Your task to perform on an android device: Search for flights from Helsinki to Seoul Image 0: 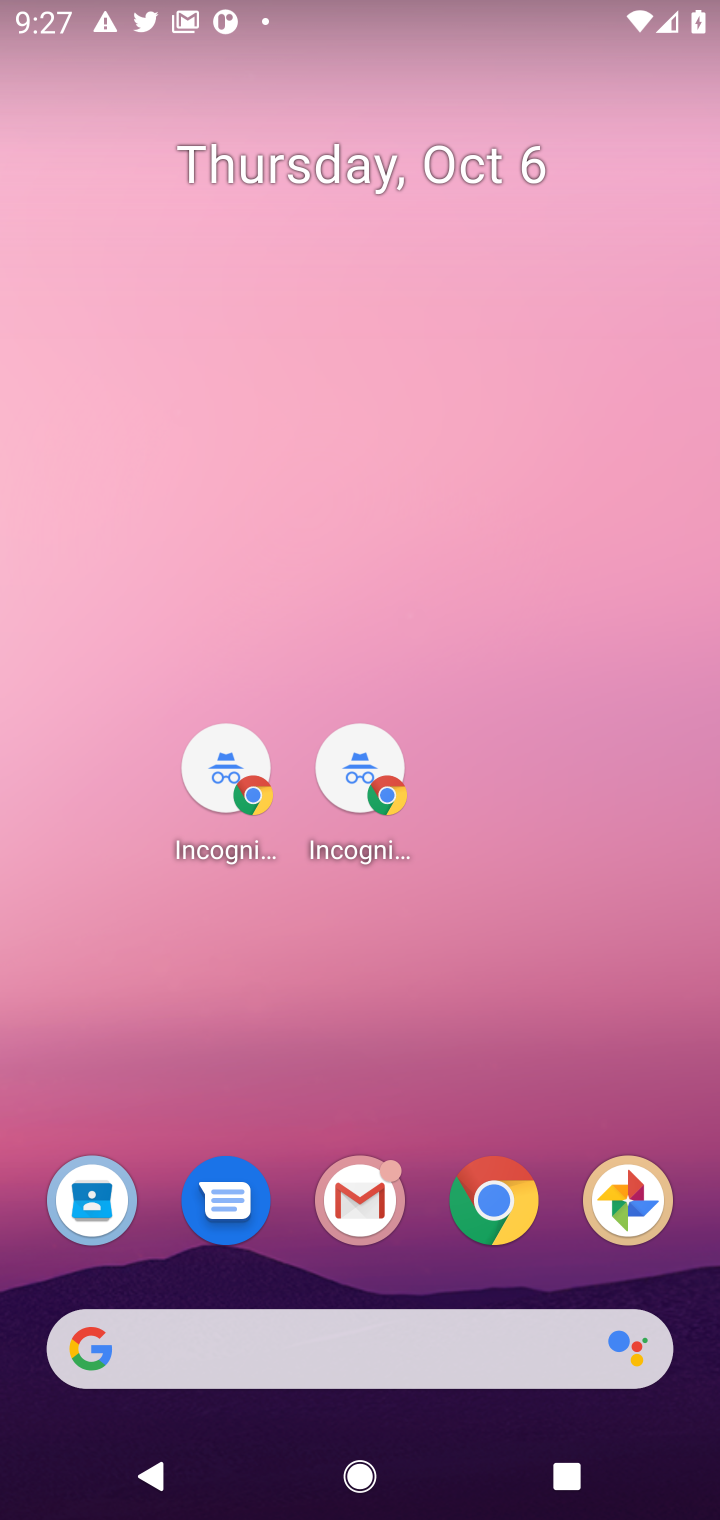
Step 0: click (504, 1221)
Your task to perform on an android device: Search for flights from Helsinki to Seoul Image 1: 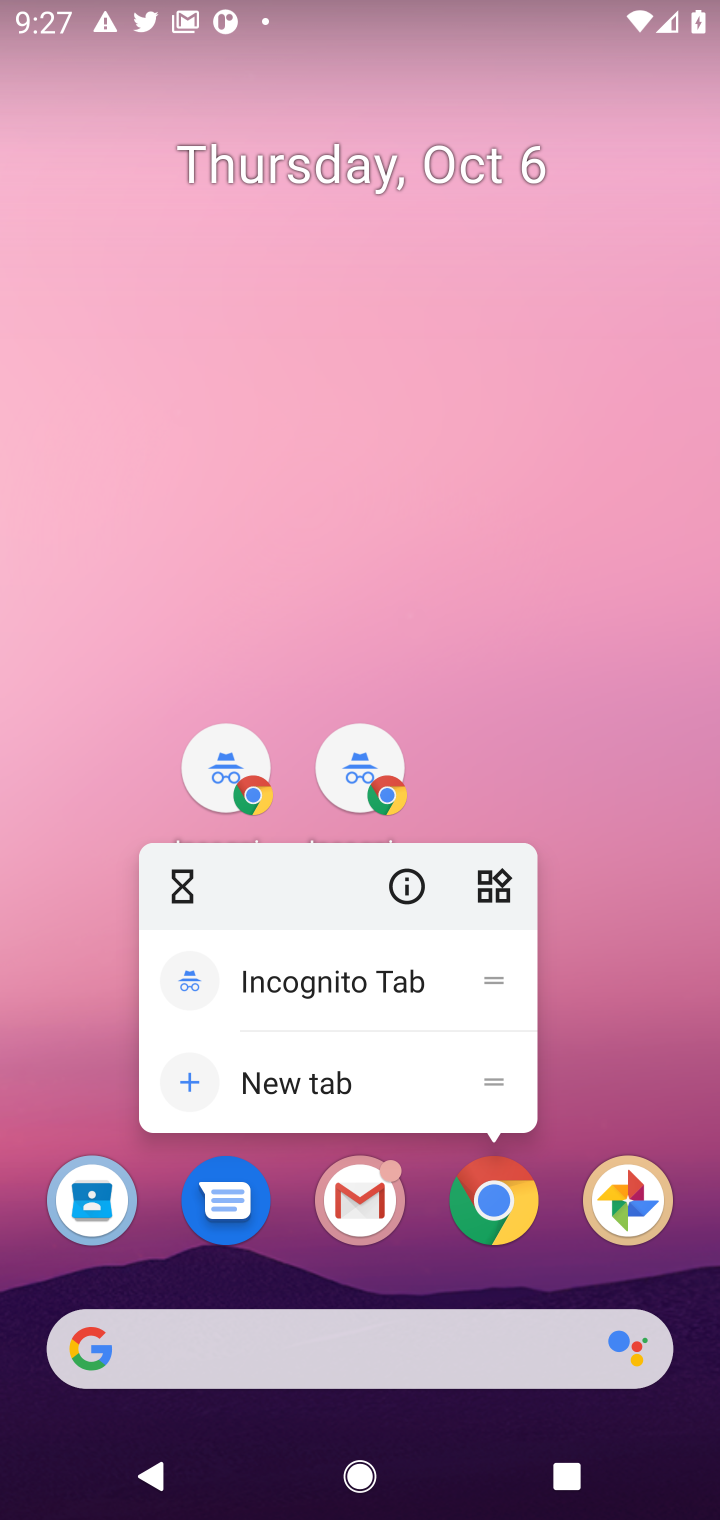
Step 1: press home button
Your task to perform on an android device: Search for flights from Helsinki to Seoul Image 2: 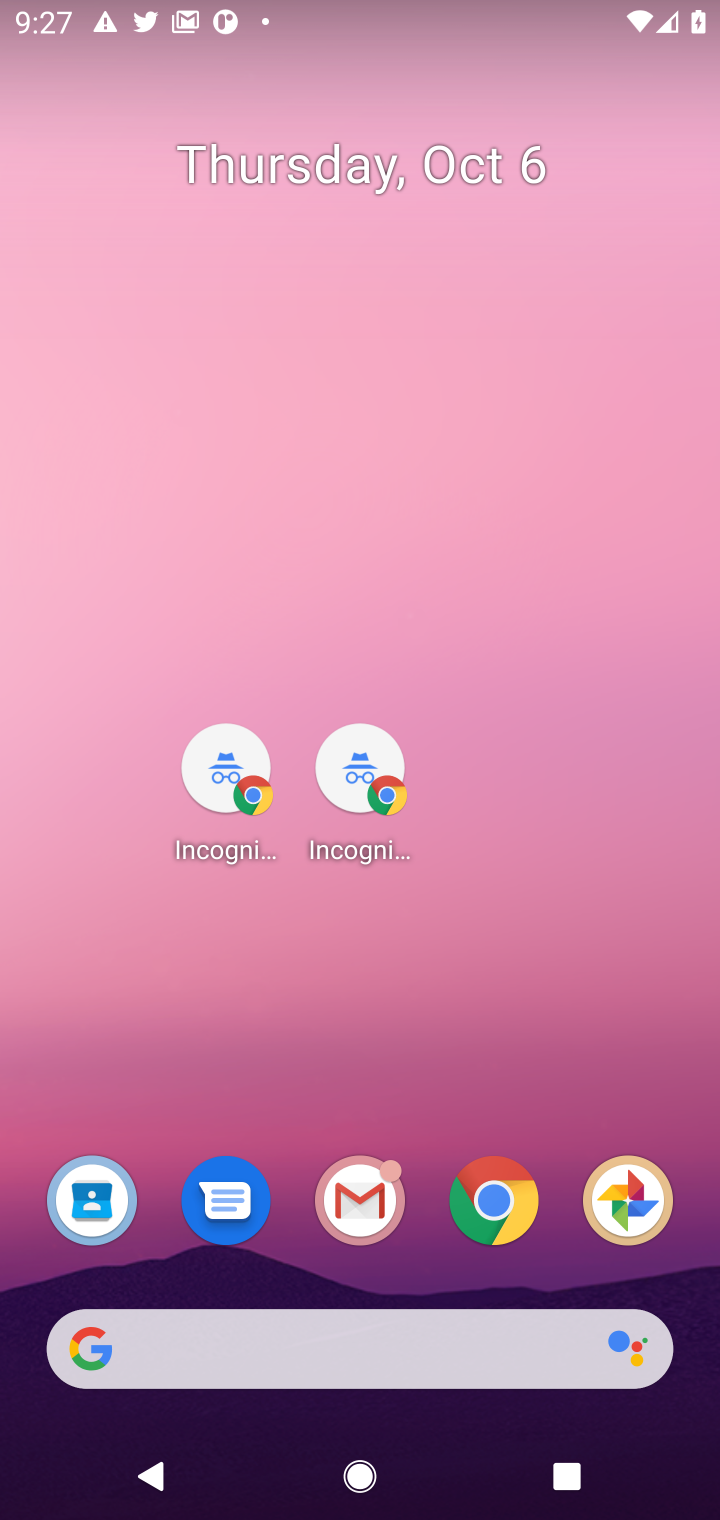
Step 2: press home button
Your task to perform on an android device: Search for flights from Helsinki to Seoul Image 3: 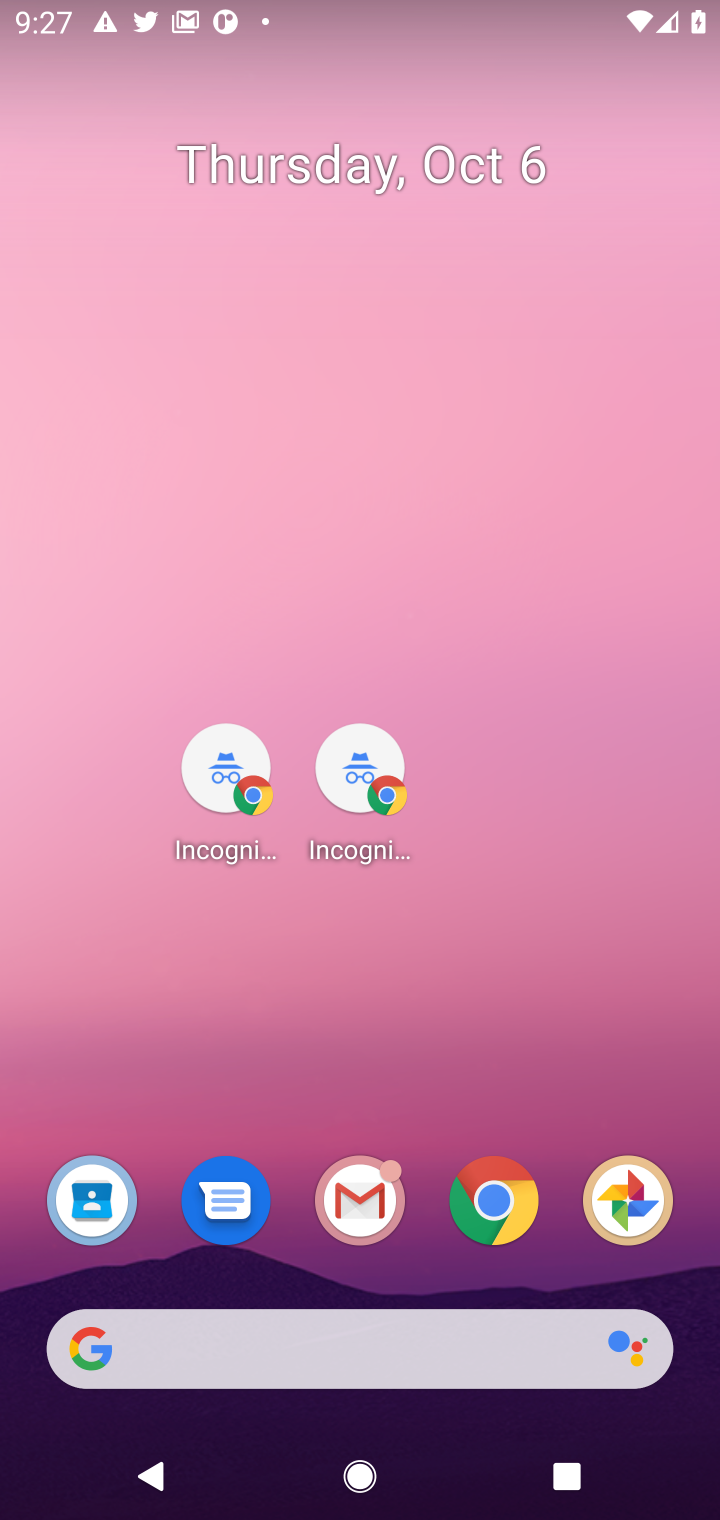
Step 3: press back button
Your task to perform on an android device: Search for flights from Helsinki to Seoul Image 4: 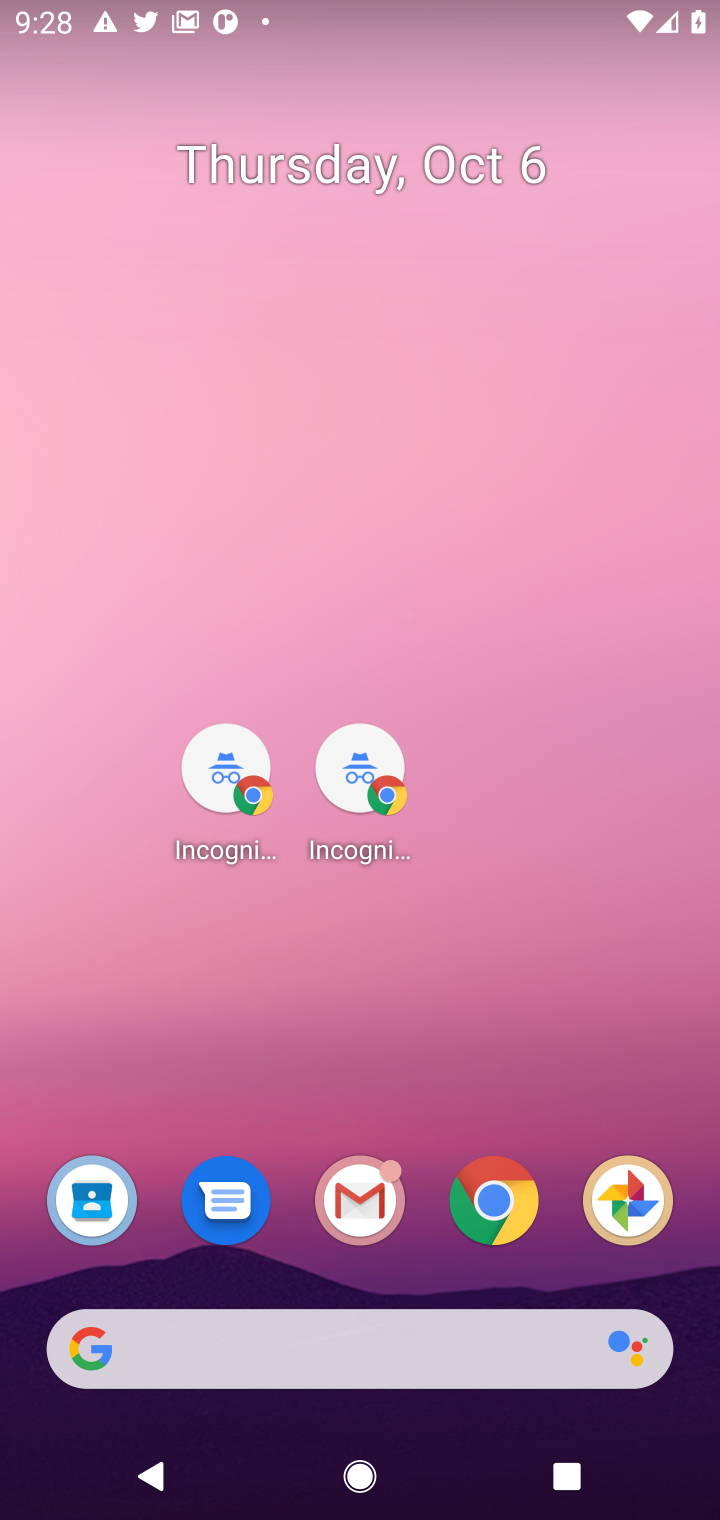
Step 4: press back button
Your task to perform on an android device: Search for flights from Helsinki to Seoul Image 5: 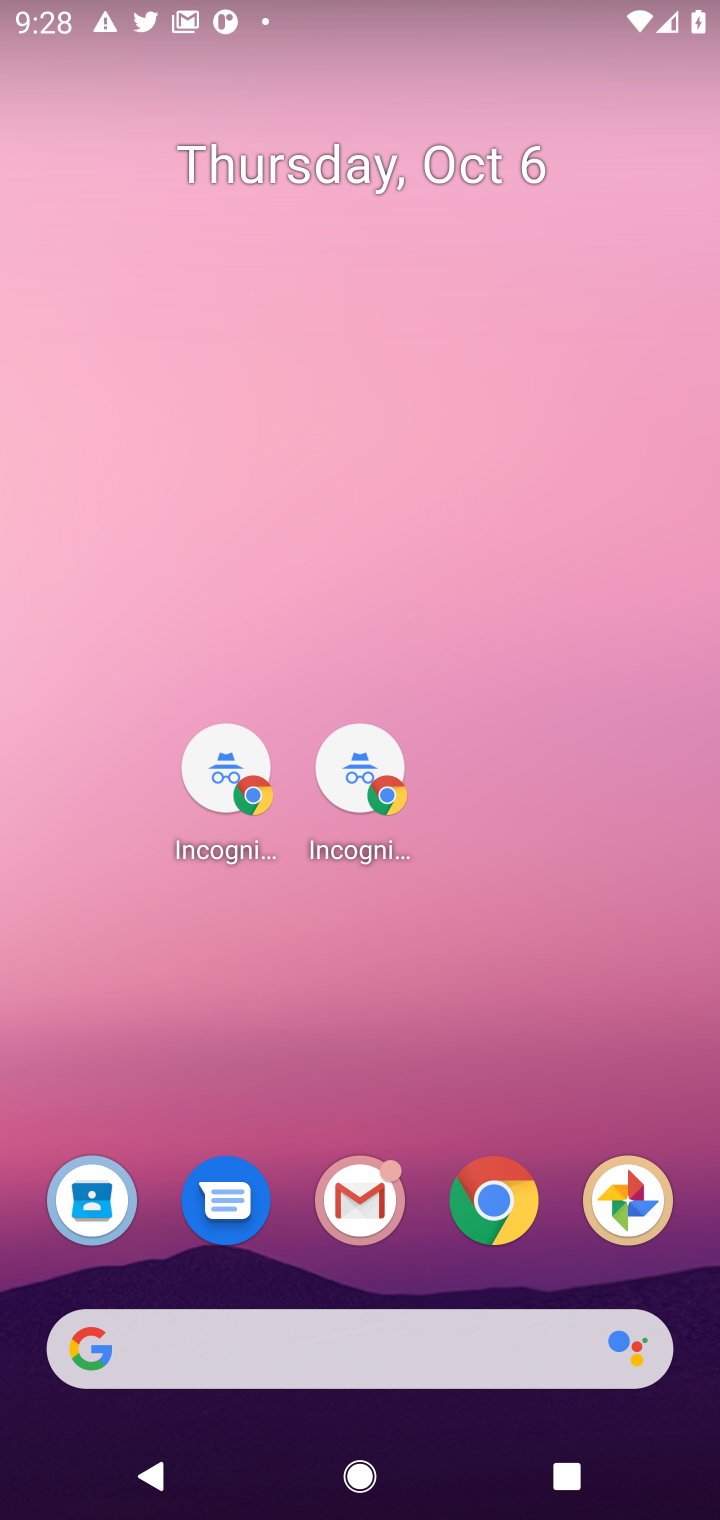
Step 5: press home button
Your task to perform on an android device: Search for flights from Helsinki to Seoul Image 6: 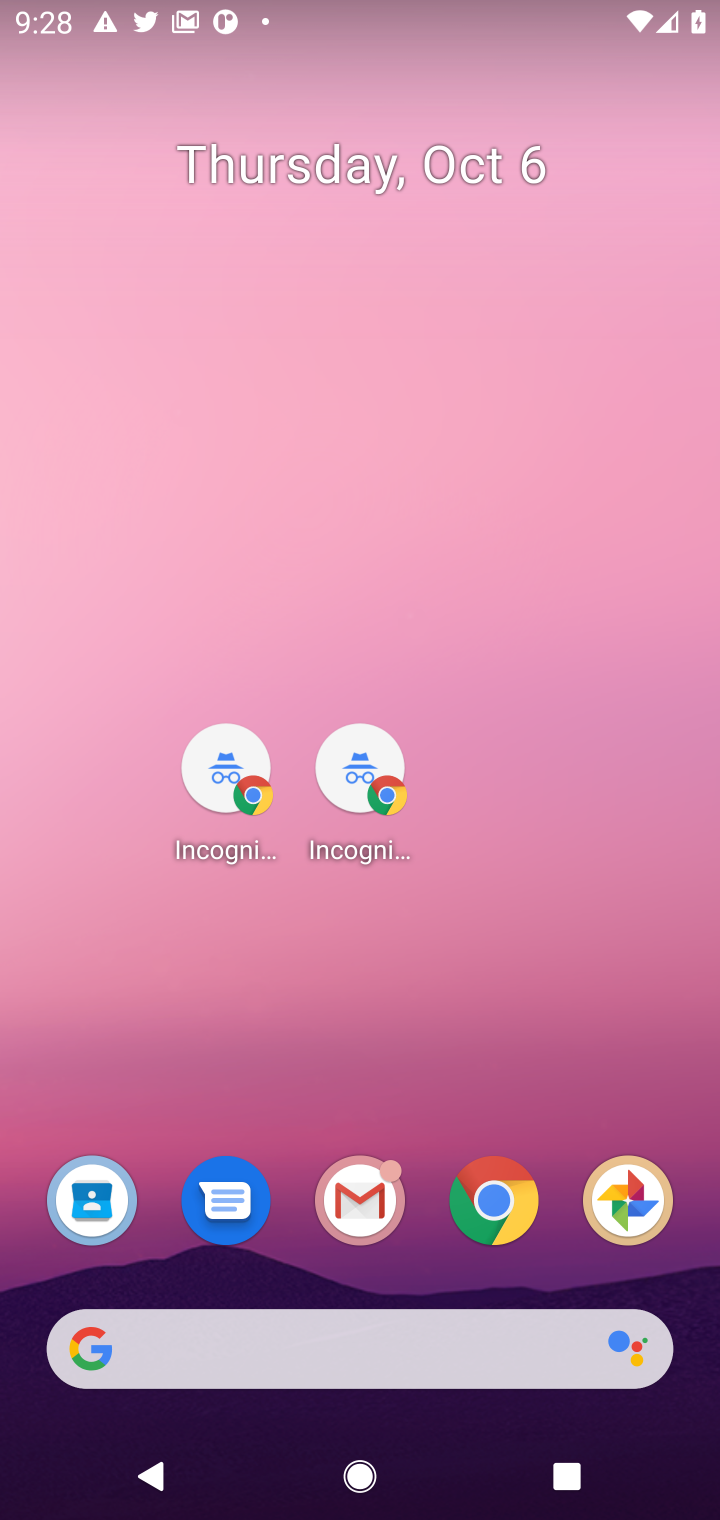
Step 6: click (529, 1205)
Your task to perform on an android device: Search for flights from Helsinki to Seoul Image 7: 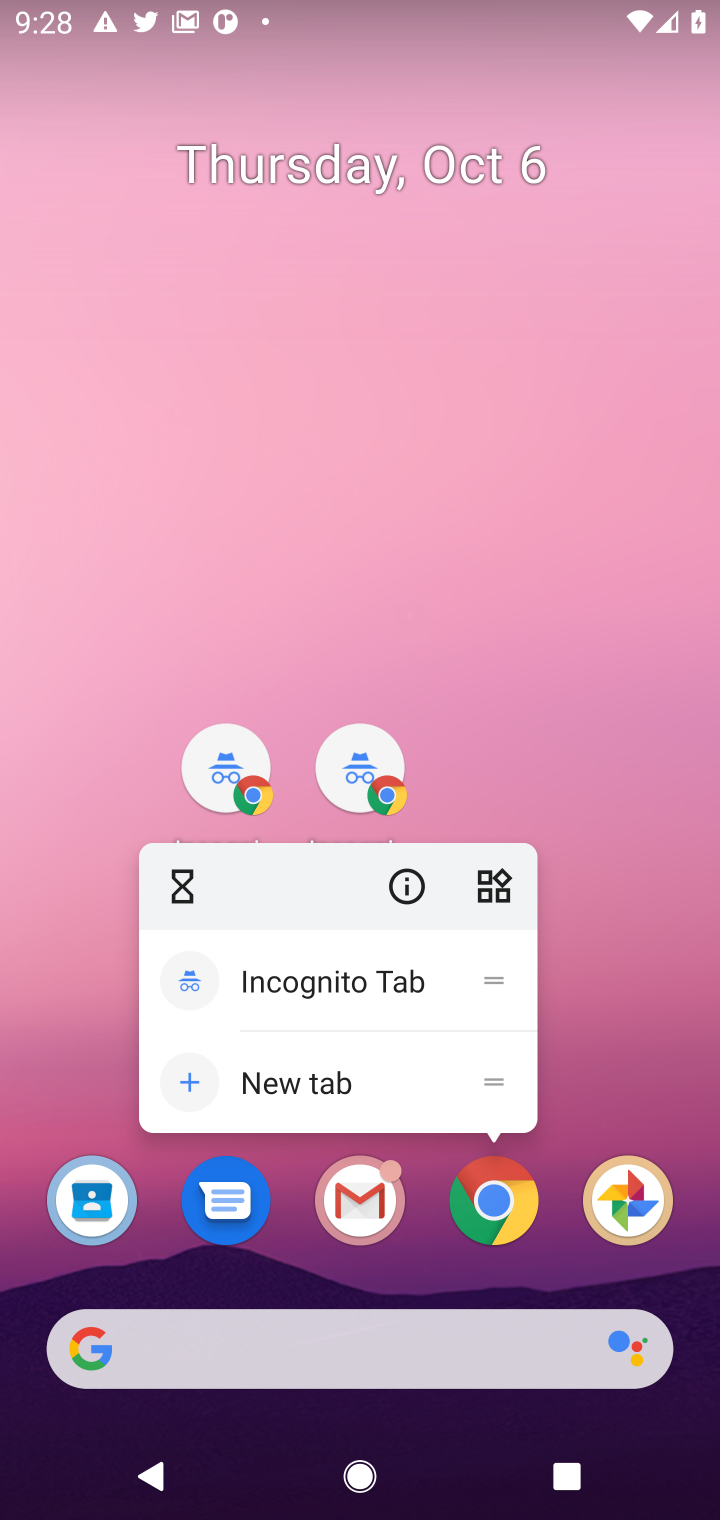
Step 7: press home button
Your task to perform on an android device: Search for flights from Helsinki to Seoul Image 8: 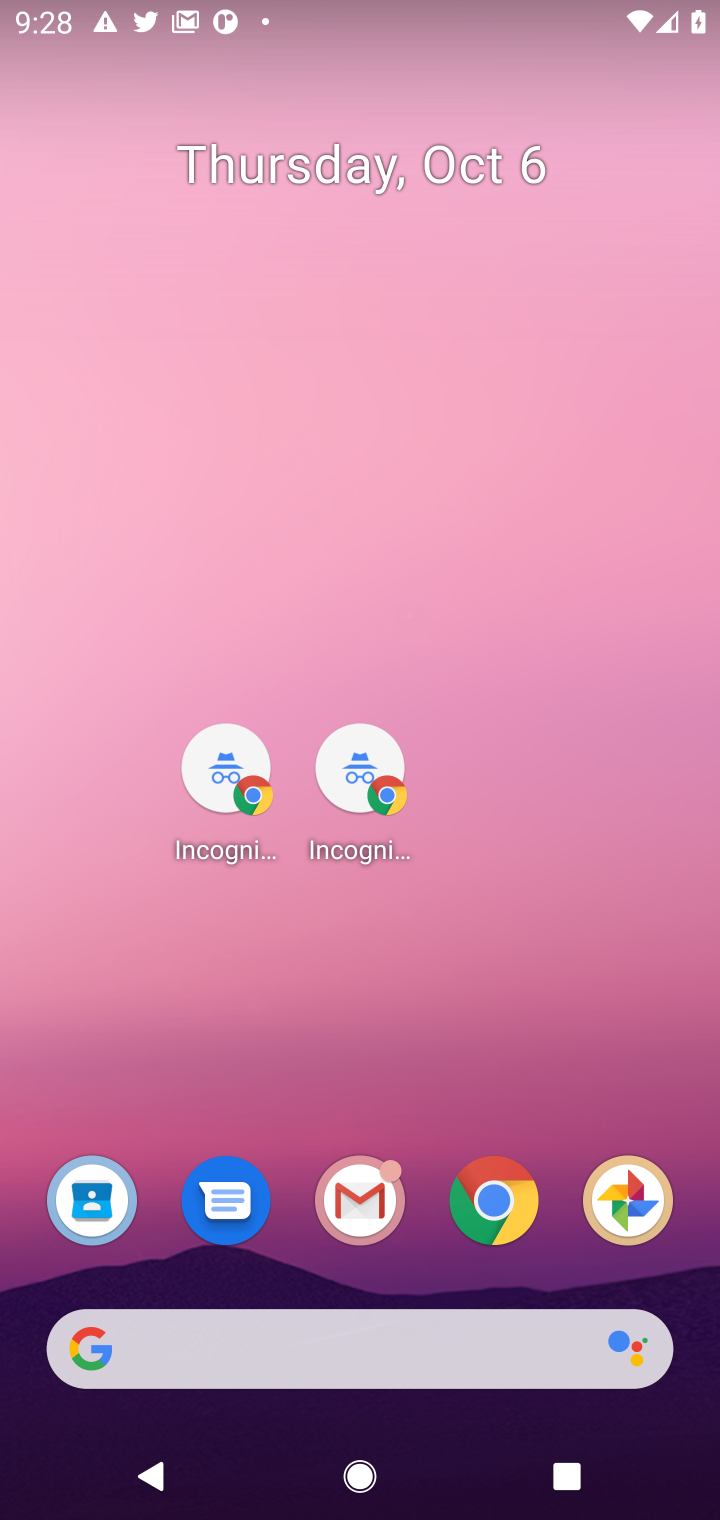
Step 8: click (496, 1203)
Your task to perform on an android device: Search for flights from Helsinki to Seoul Image 9: 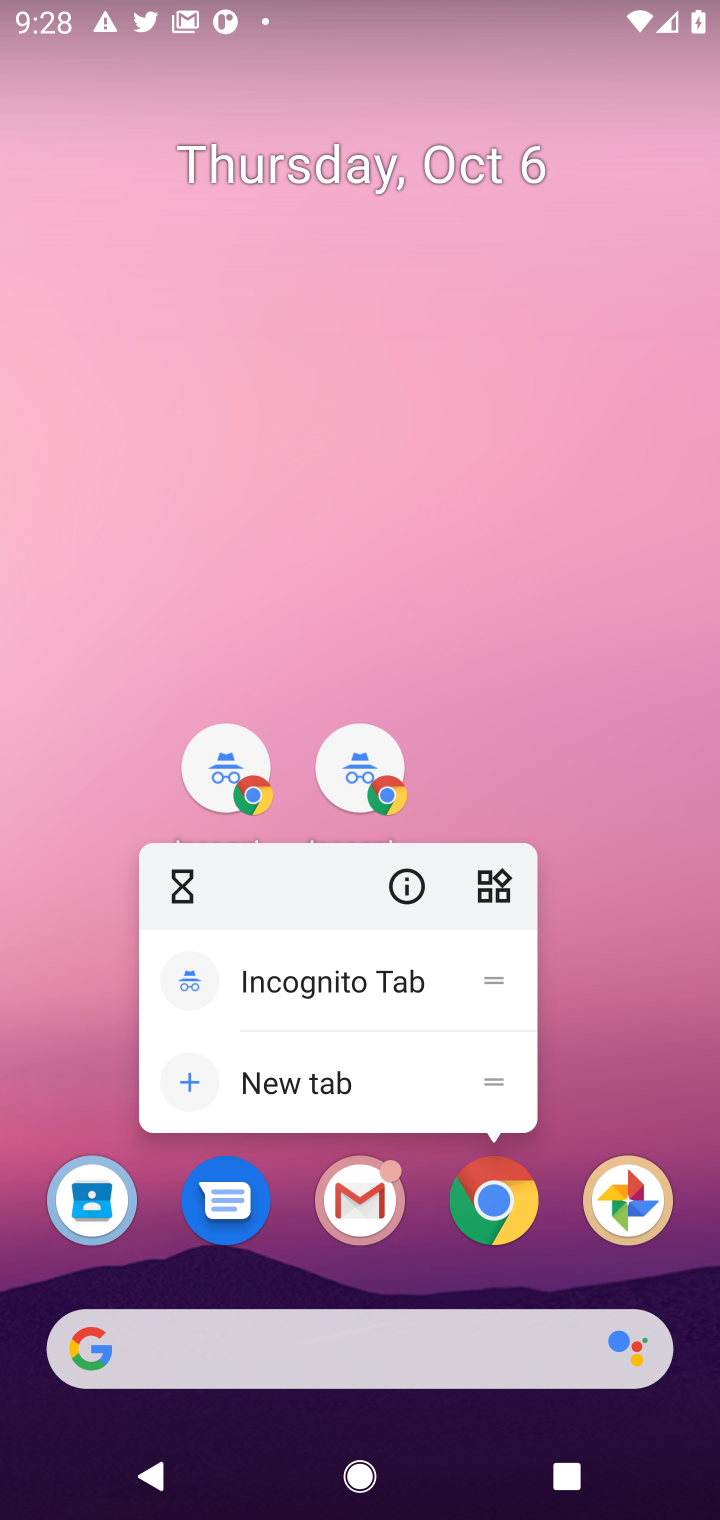
Step 9: press home button
Your task to perform on an android device: Search for flights from Helsinki to Seoul Image 10: 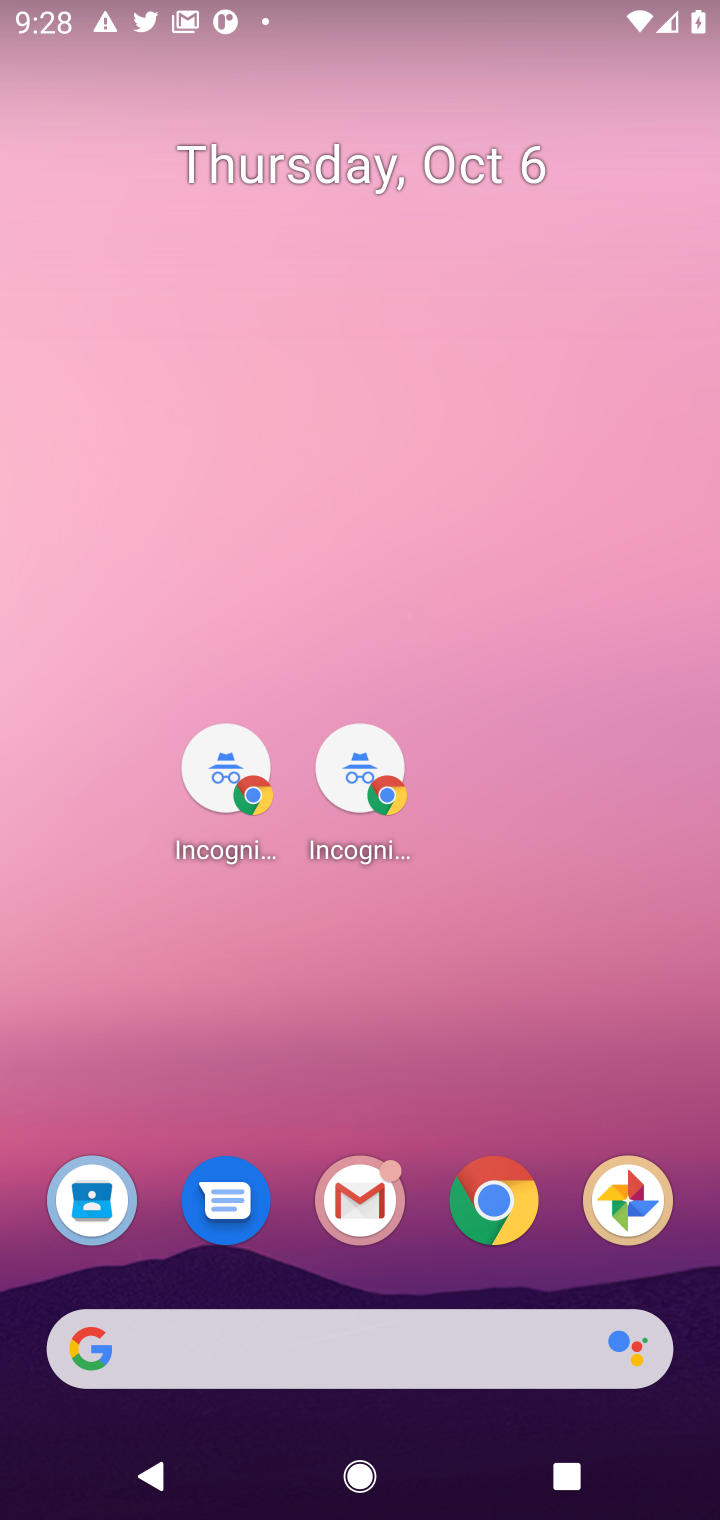
Step 10: press back button
Your task to perform on an android device: Search for flights from Helsinki to Seoul Image 11: 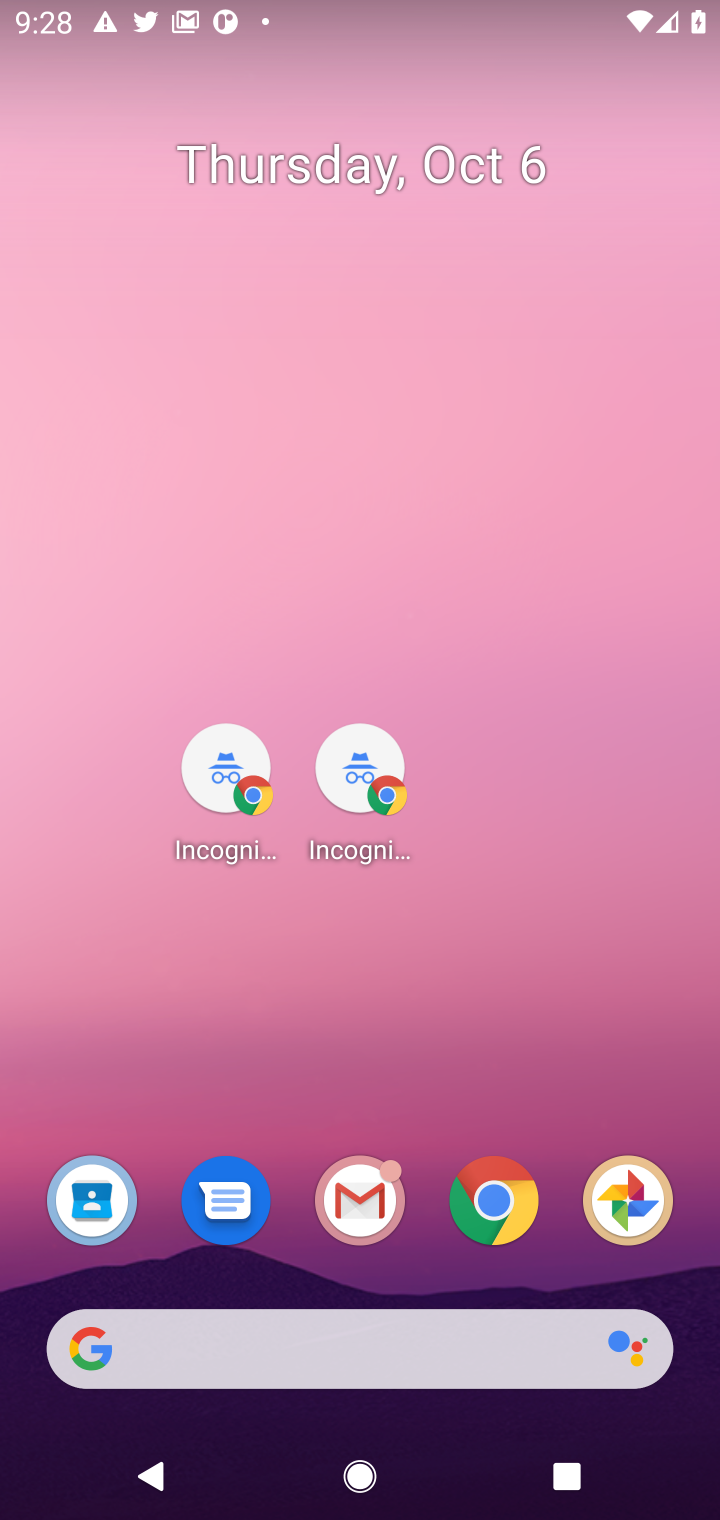
Step 11: press home button
Your task to perform on an android device: Search for flights from Helsinki to Seoul Image 12: 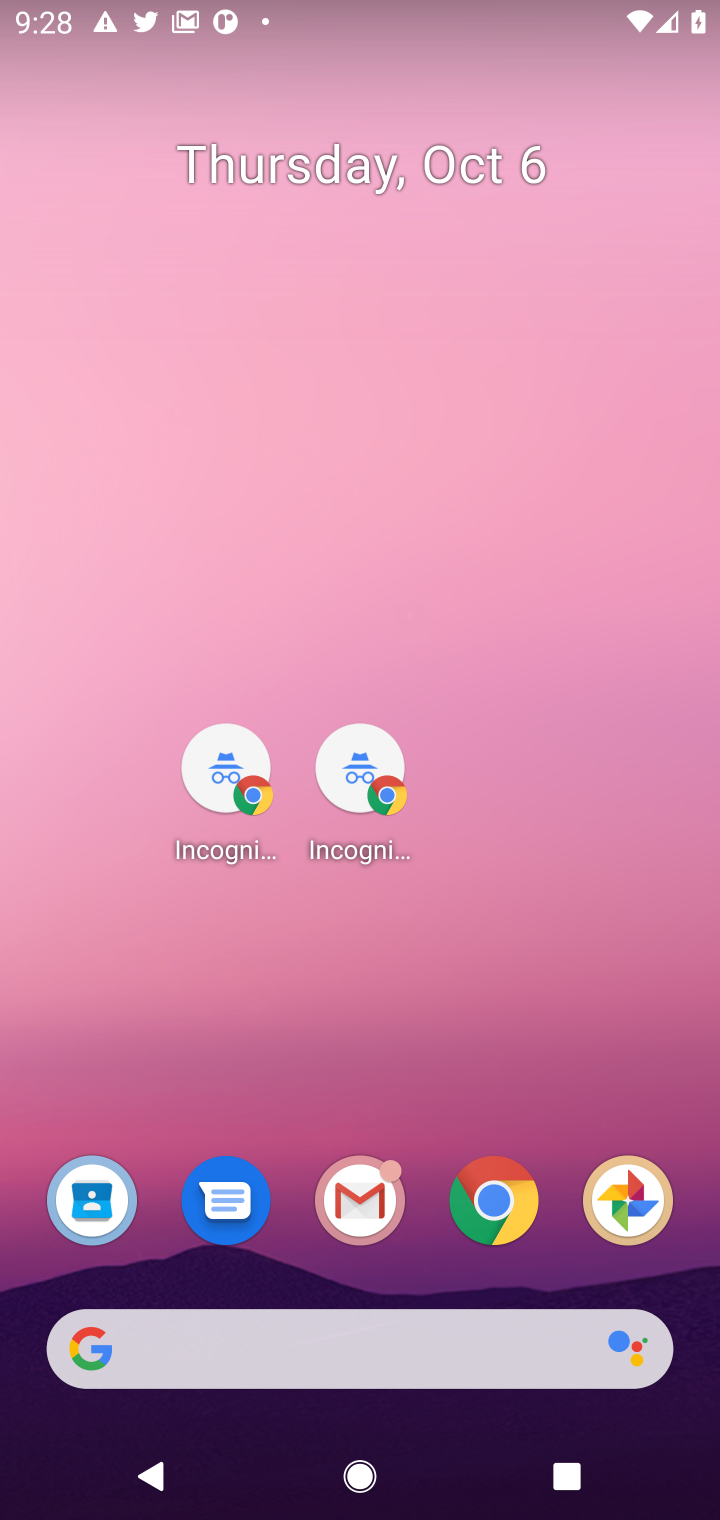
Step 12: click (485, 1190)
Your task to perform on an android device: Search for flights from Helsinki to Seoul Image 13: 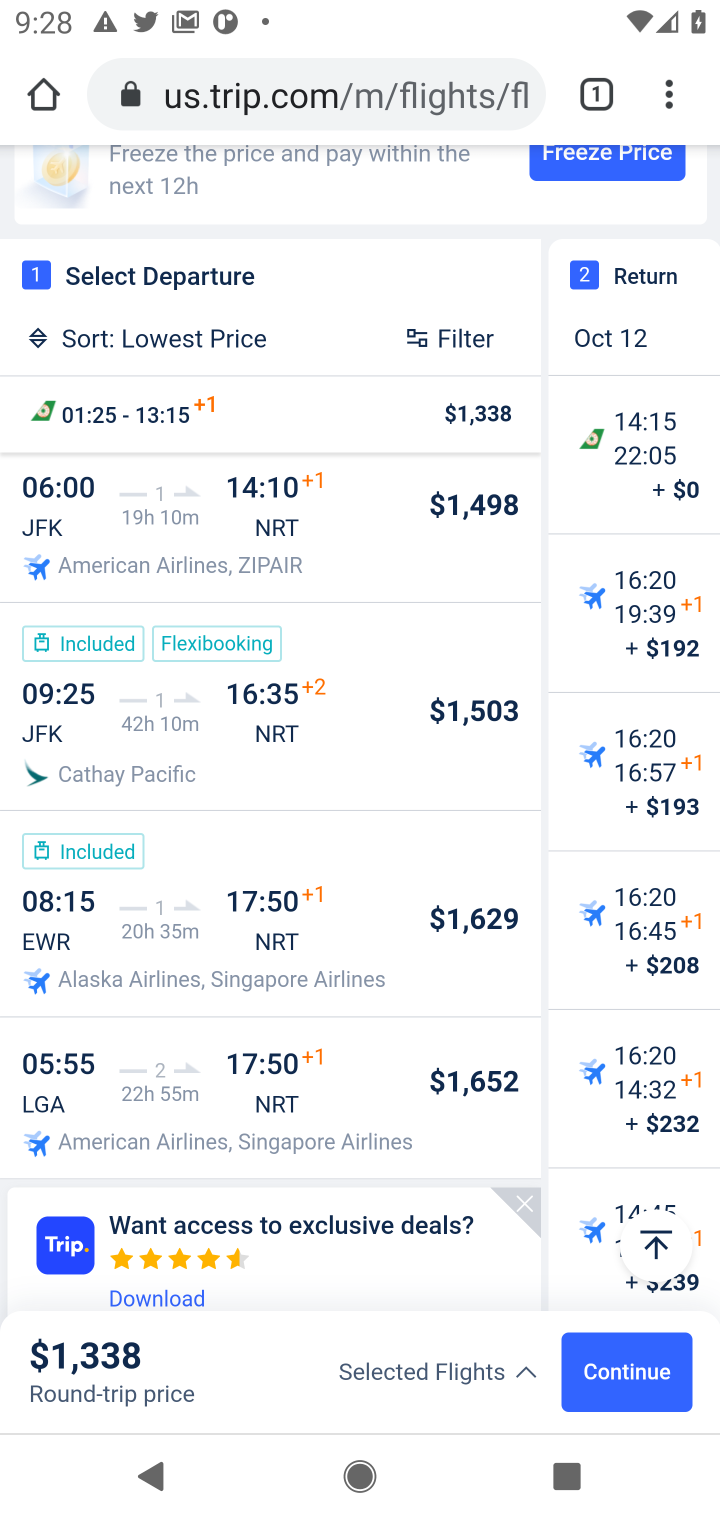
Step 13: drag from (359, 1028) to (419, 115)
Your task to perform on an android device: Search for flights from Helsinki to Seoul Image 14: 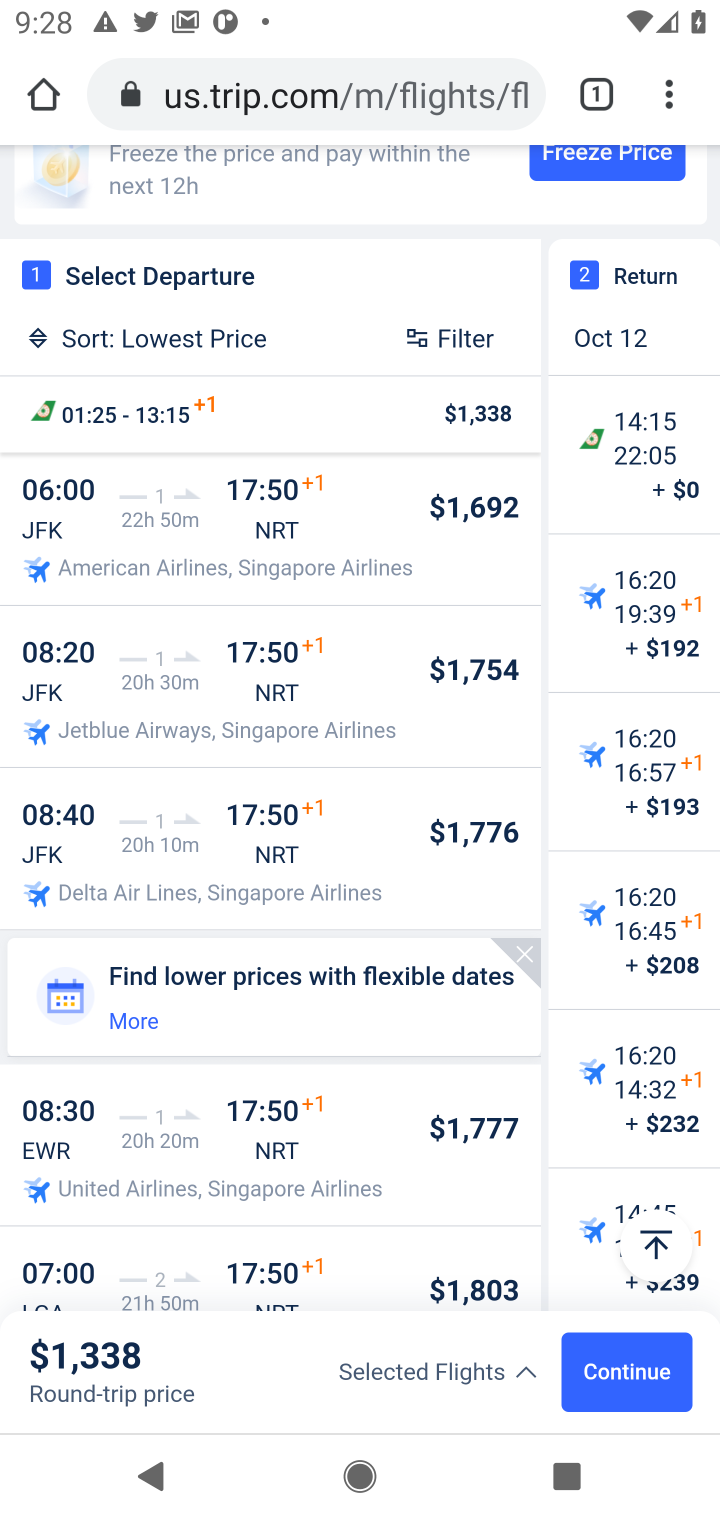
Step 14: click (515, 1357)
Your task to perform on an android device: Search for flights from Helsinki to Seoul Image 15: 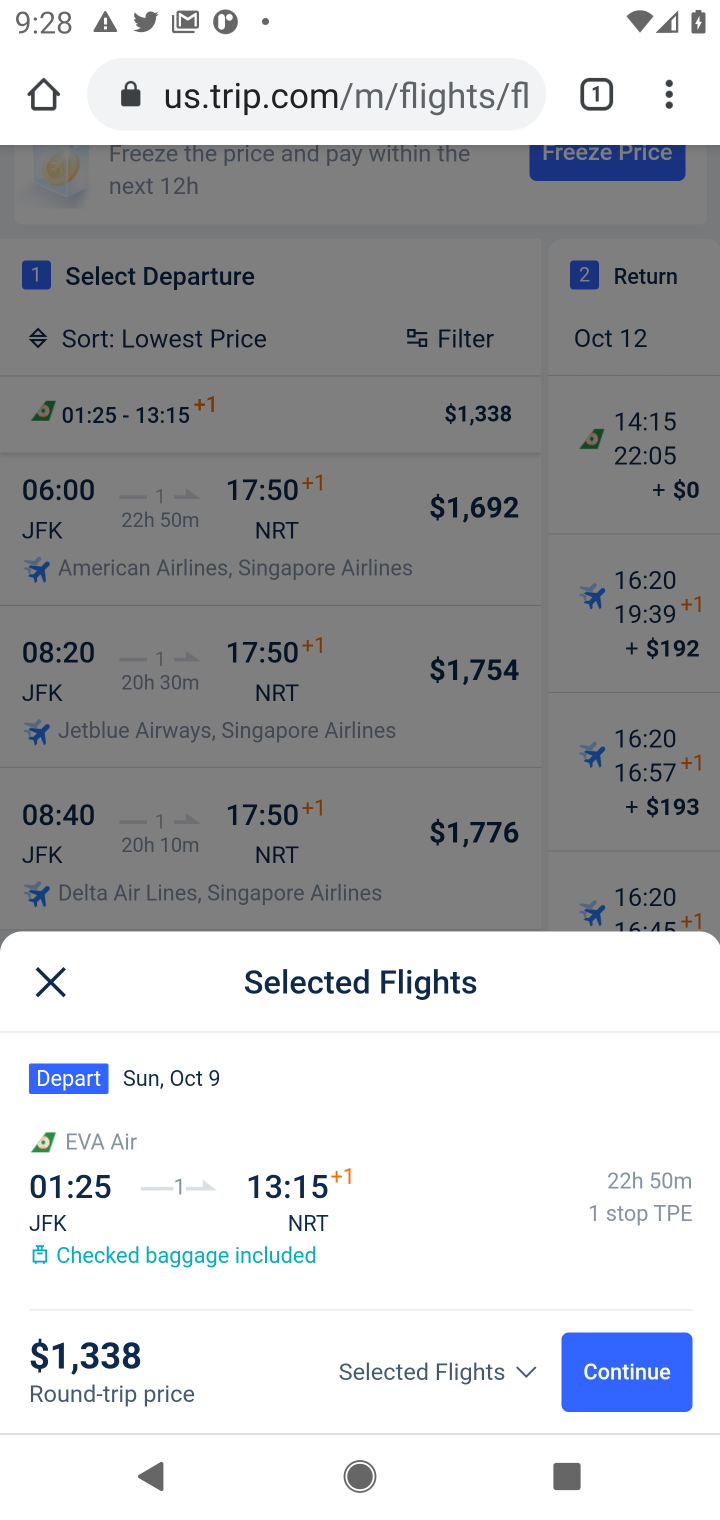
Step 15: click (61, 983)
Your task to perform on an android device: Search for flights from Helsinki to Seoul Image 16: 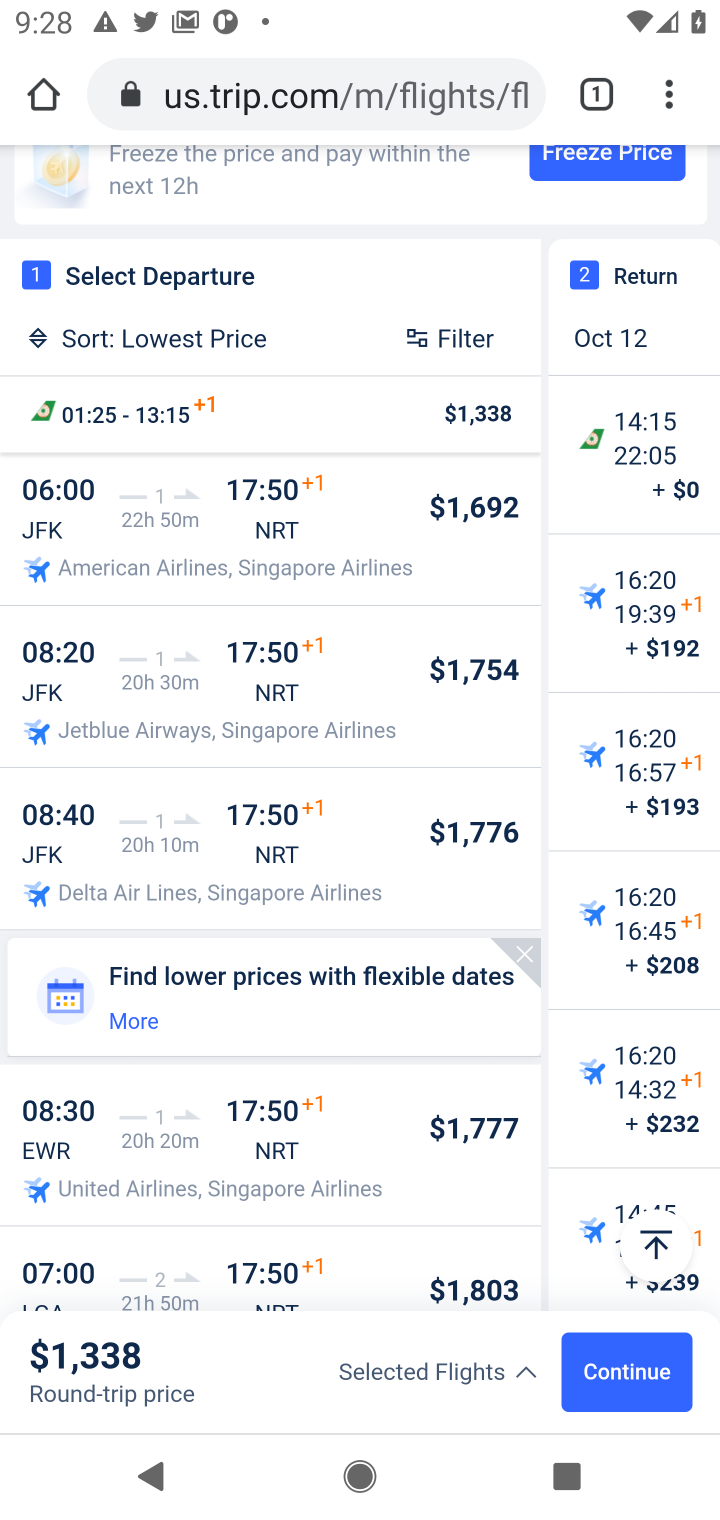
Step 16: drag from (366, 534) to (407, 1415)
Your task to perform on an android device: Search for flights from Helsinki to Seoul Image 17: 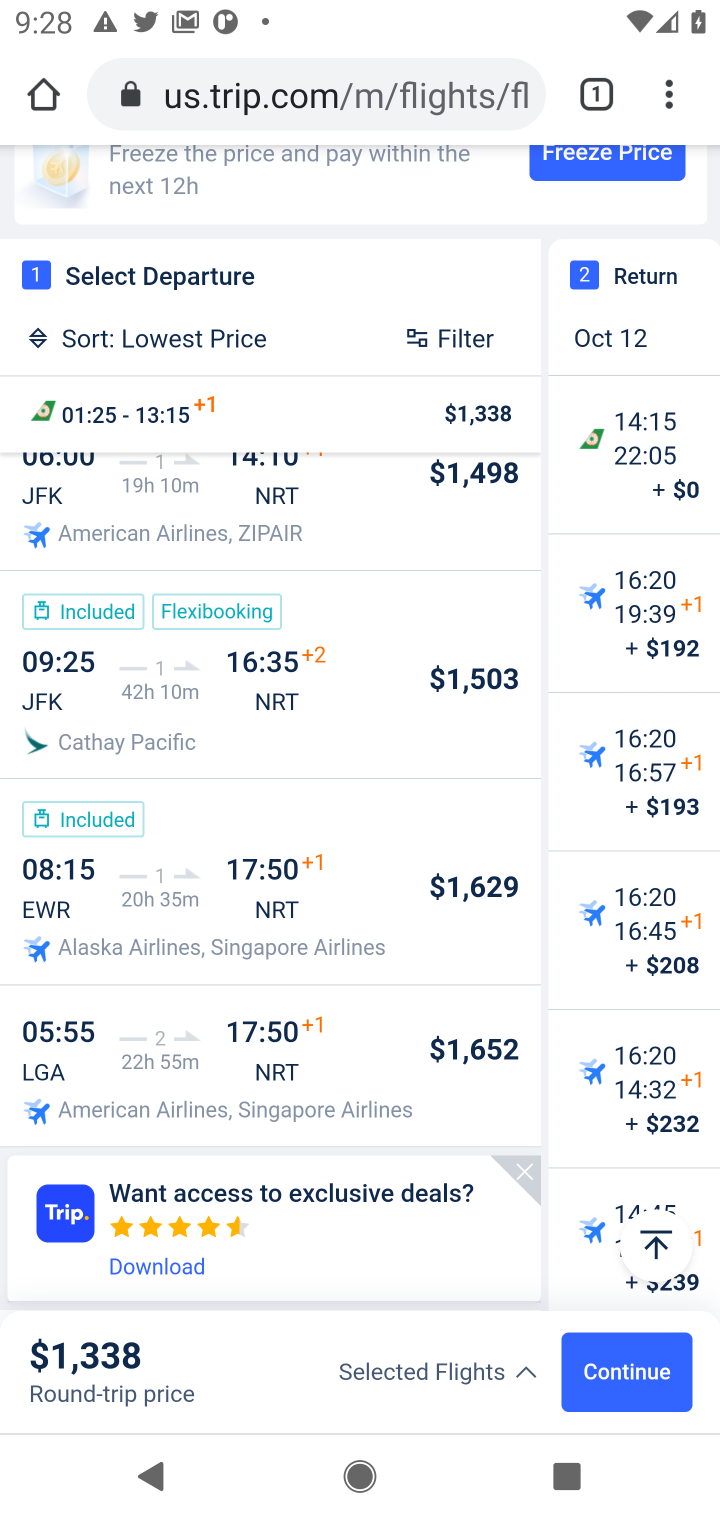
Step 17: drag from (364, 592) to (456, 1435)
Your task to perform on an android device: Search for flights from Helsinki to Seoul Image 18: 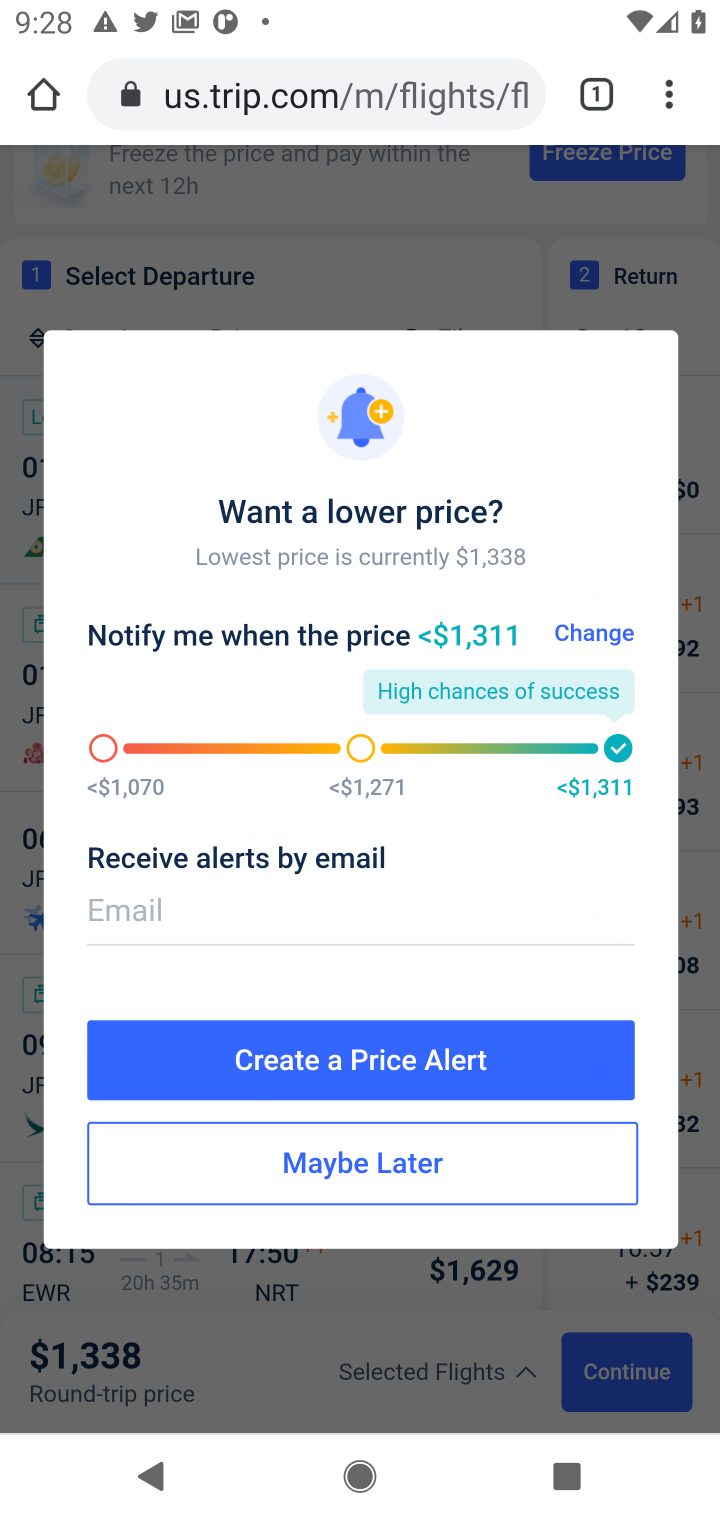
Step 18: click (380, 1163)
Your task to perform on an android device: Search for flights from Helsinki to Seoul Image 19: 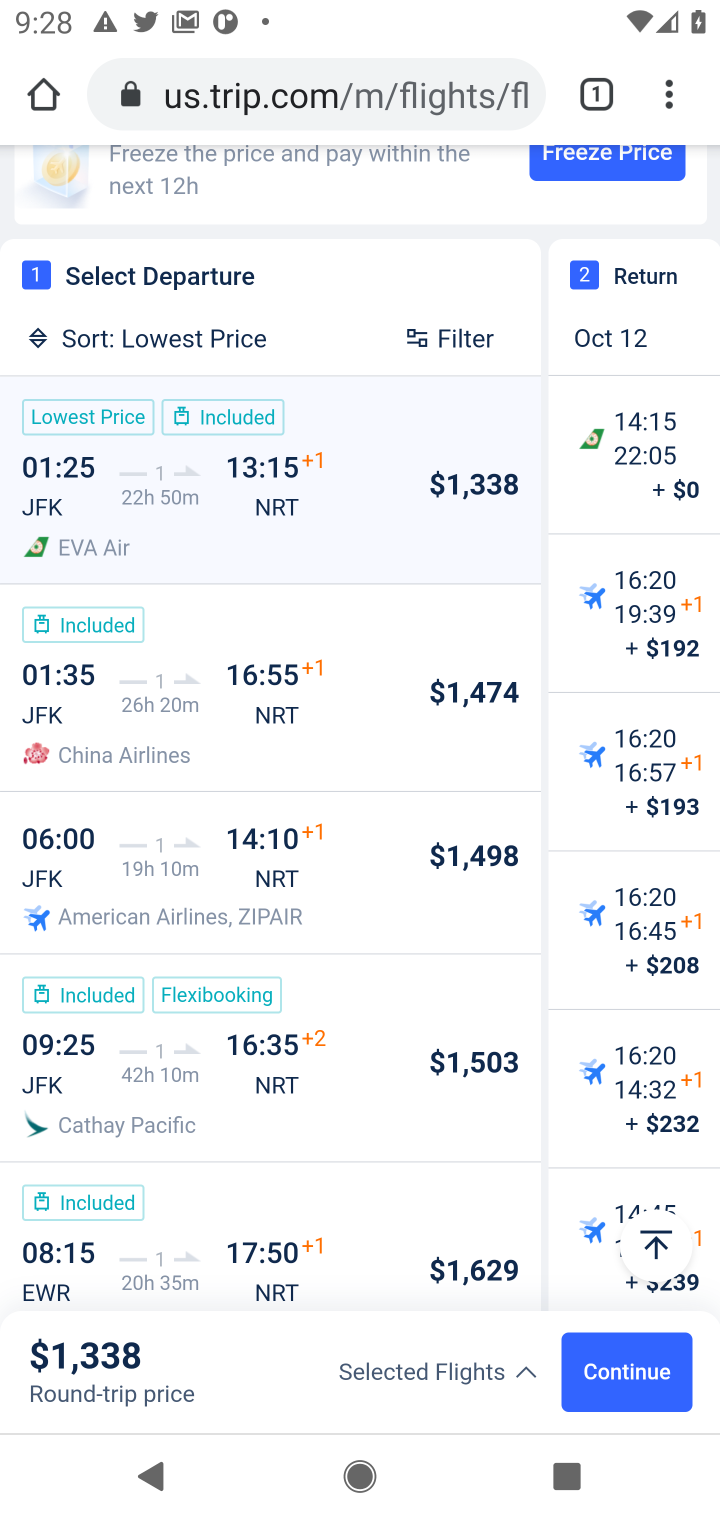
Step 19: click (457, 343)
Your task to perform on an android device: Search for flights from Helsinki to Seoul Image 20: 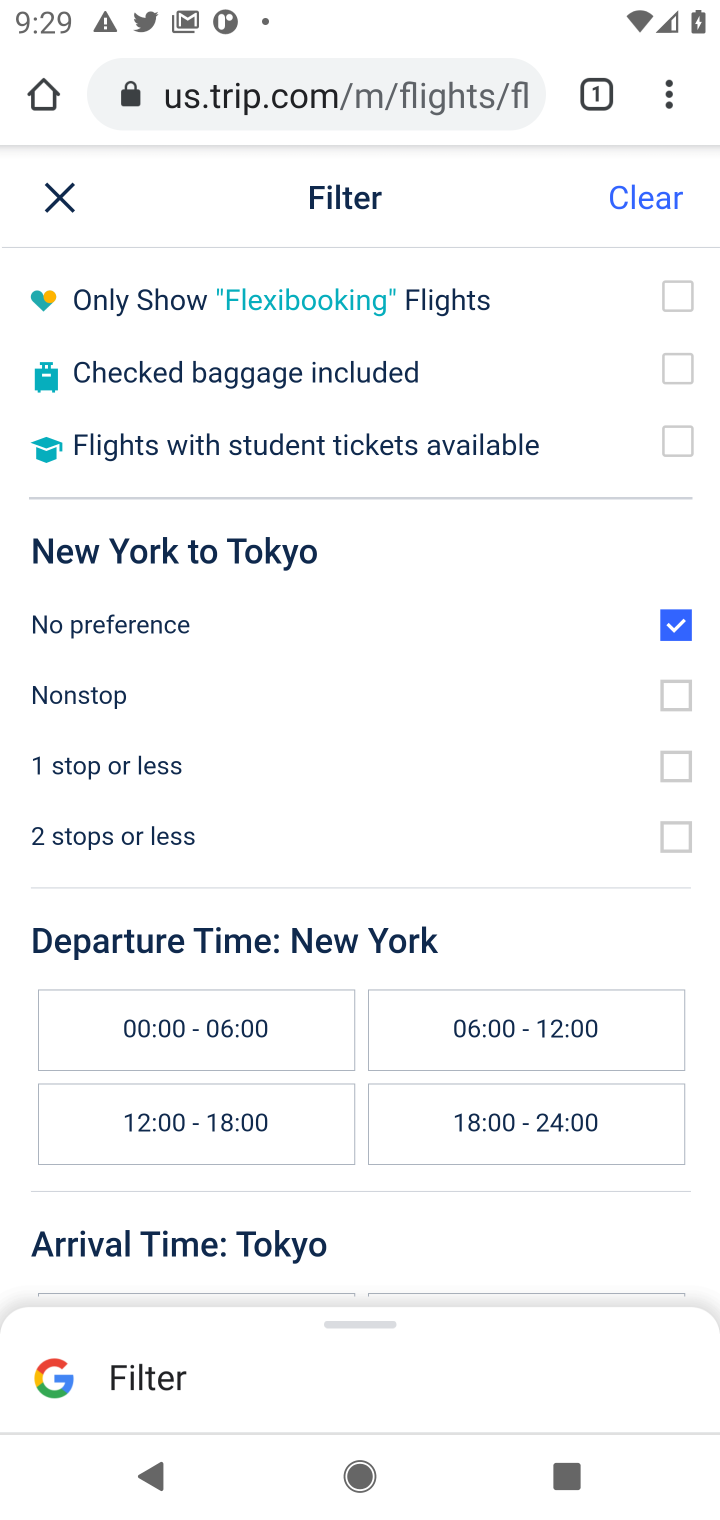
Step 20: drag from (276, 1043) to (402, 552)
Your task to perform on an android device: Search for flights from Helsinki to Seoul Image 21: 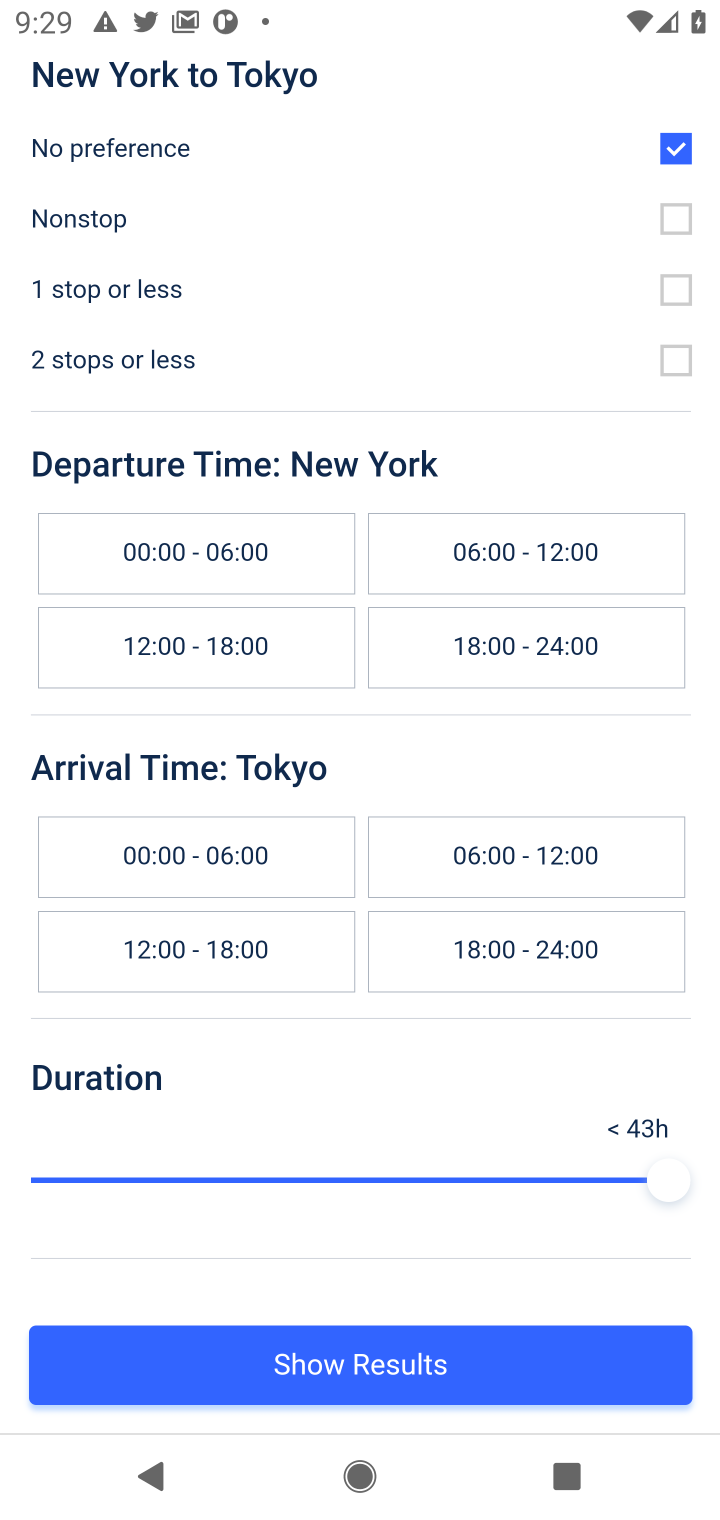
Step 21: drag from (415, 272) to (441, 1164)
Your task to perform on an android device: Search for flights from Helsinki to Seoul Image 22: 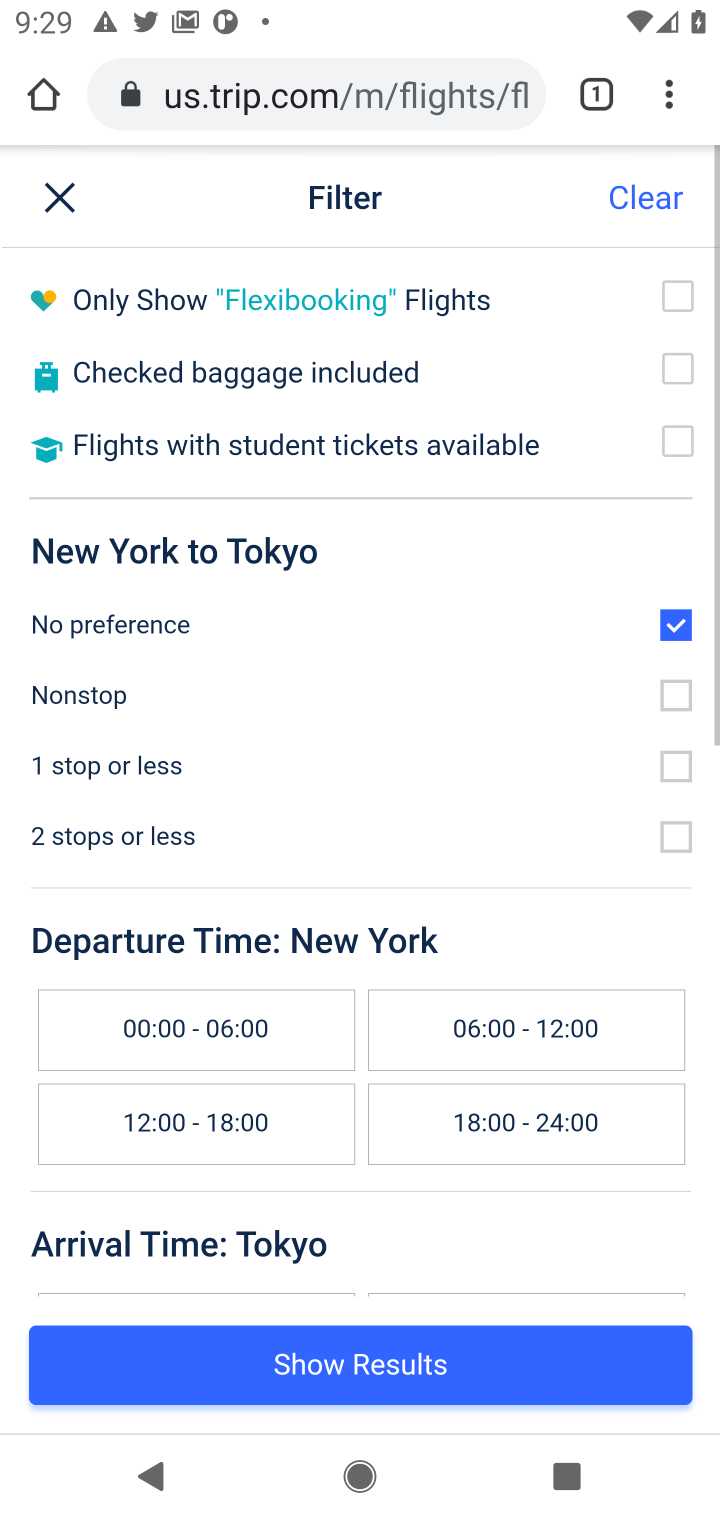
Step 22: drag from (250, 431) to (313, 849)
Your task to perform on an android device: Search for flights from Helsinki to Seoul Image 23: 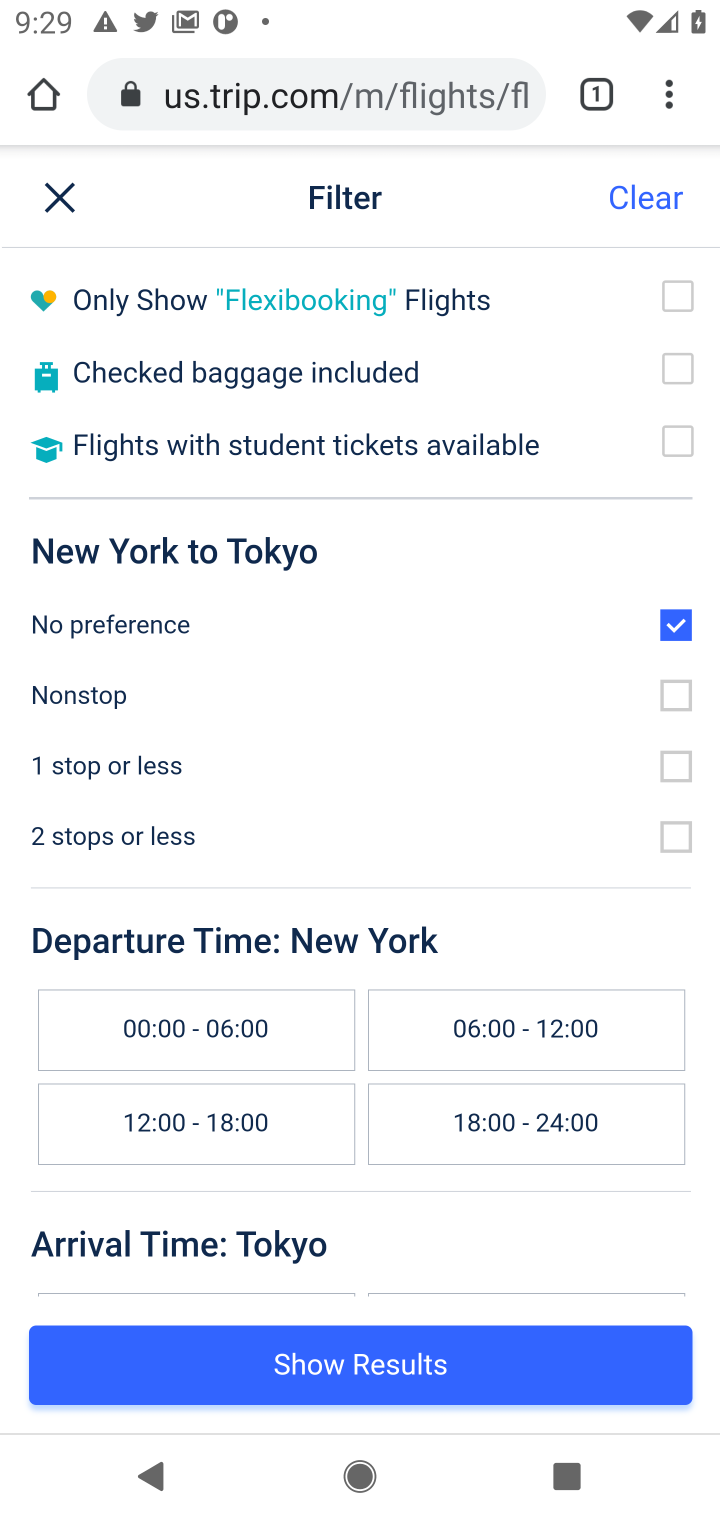
Step 23: click (350, 196)
Your task to perform on an android device: Search for flights from Helsinki to Seoul Image 24: 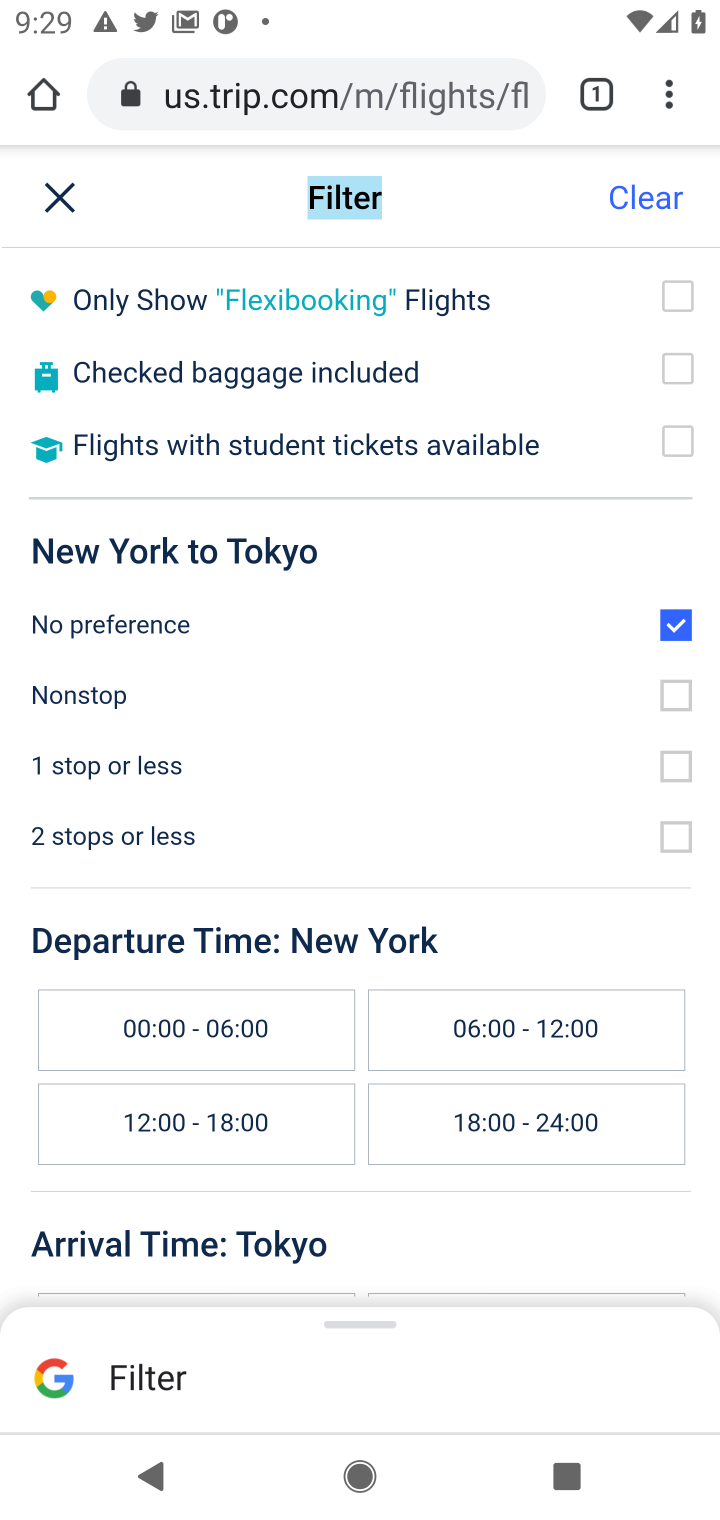
Step 24: drag from (348, 1064) to (424, 617)
Your task to perform on an android device: Search for flights from Helsinki to Seoul Image 25: 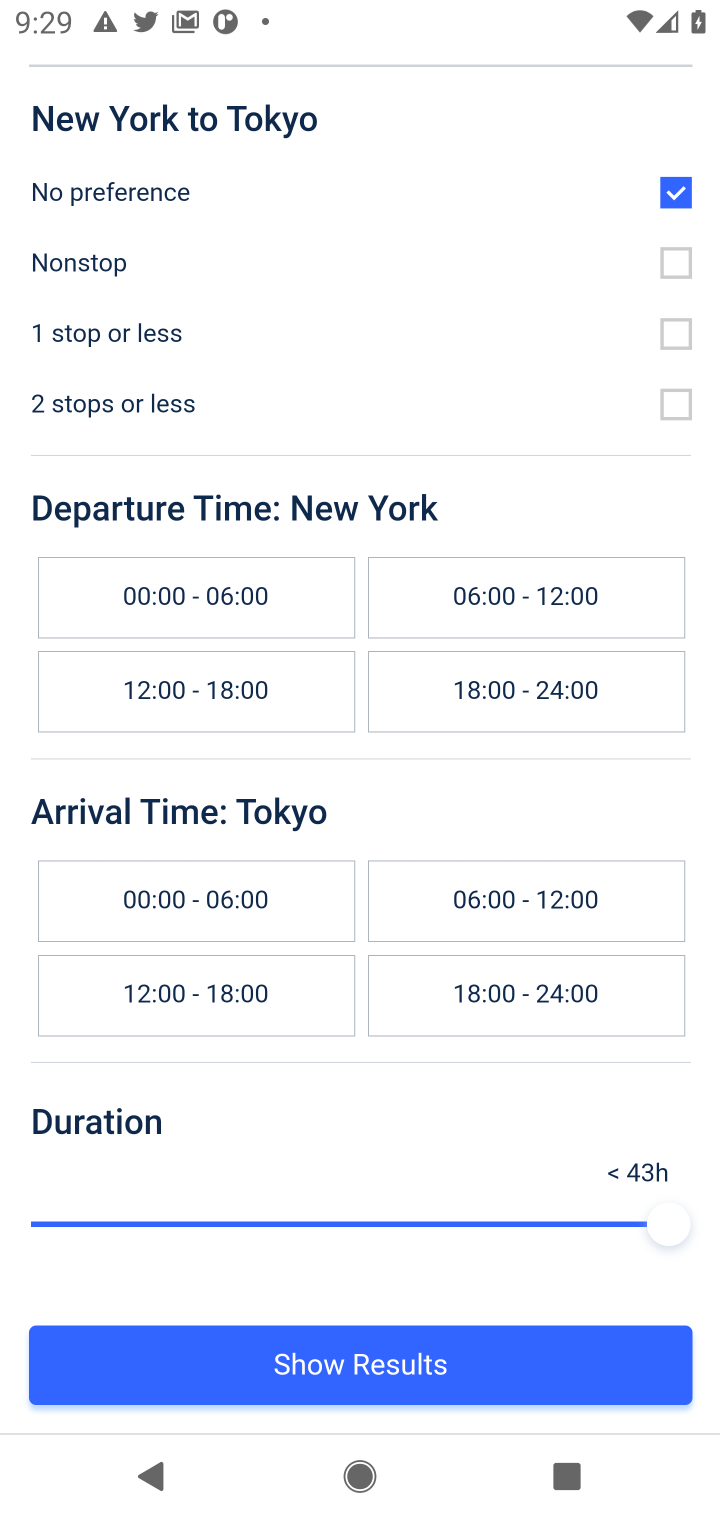
Step 25: drag from (200, 443) to (343, 1235)
Your task to perform on an android device: Search for flights from Helsinki to Seoul Image 26: 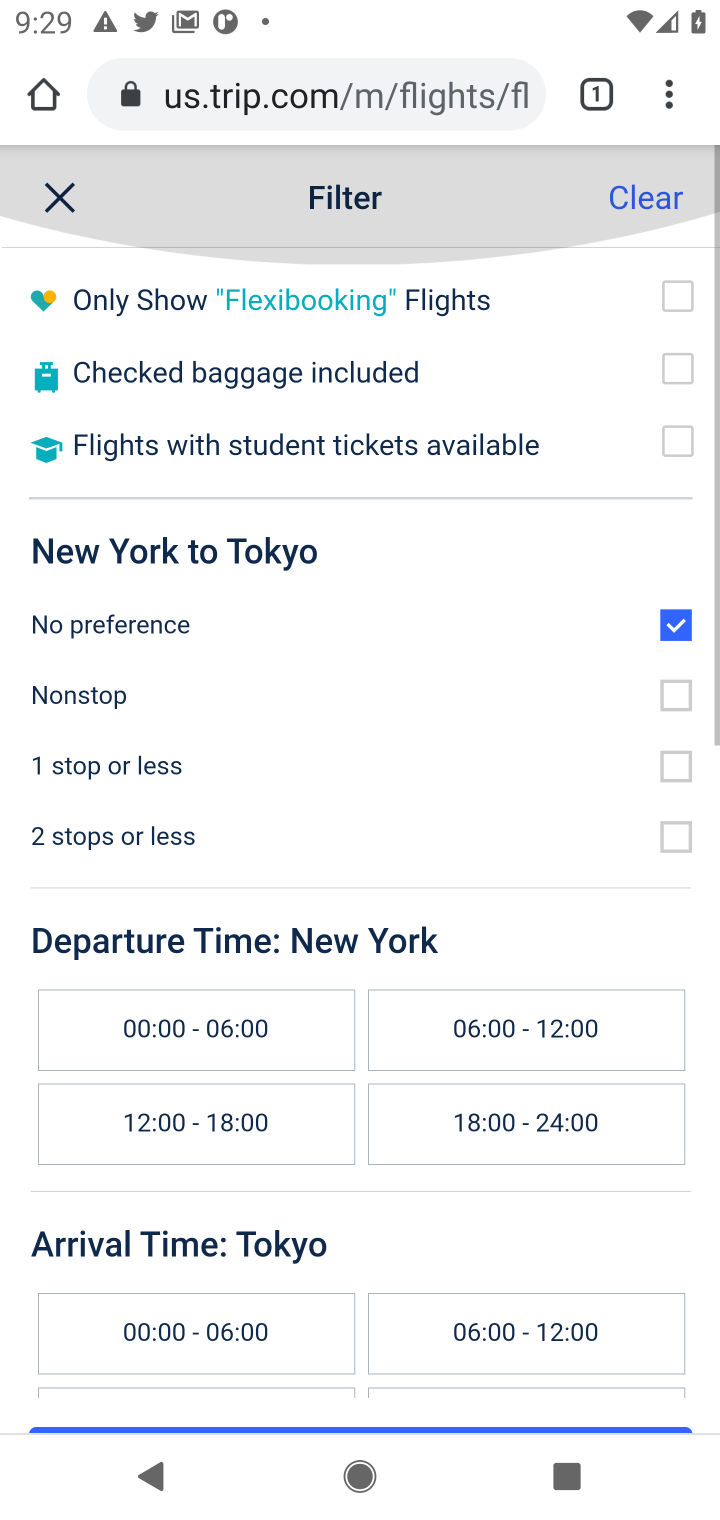
Step 26: drag from (331, 1089) to (345, 1236)
Your task to perform on an android device: Search for flights from Helsinki to Seoul Image 27: 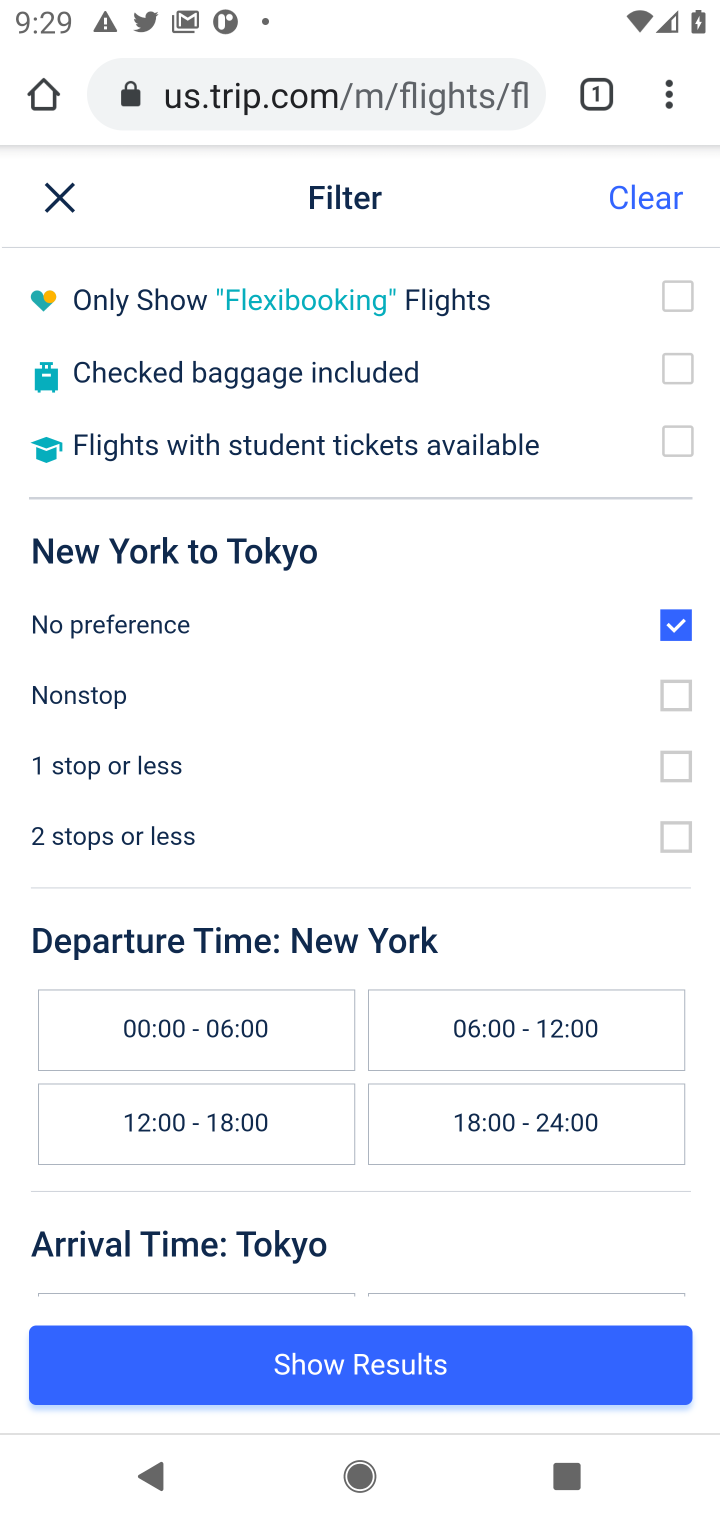
Step 27: click (49, 194)
Your task to perform on an android device: Search for flights from Helsinki to Seoul Image 28: 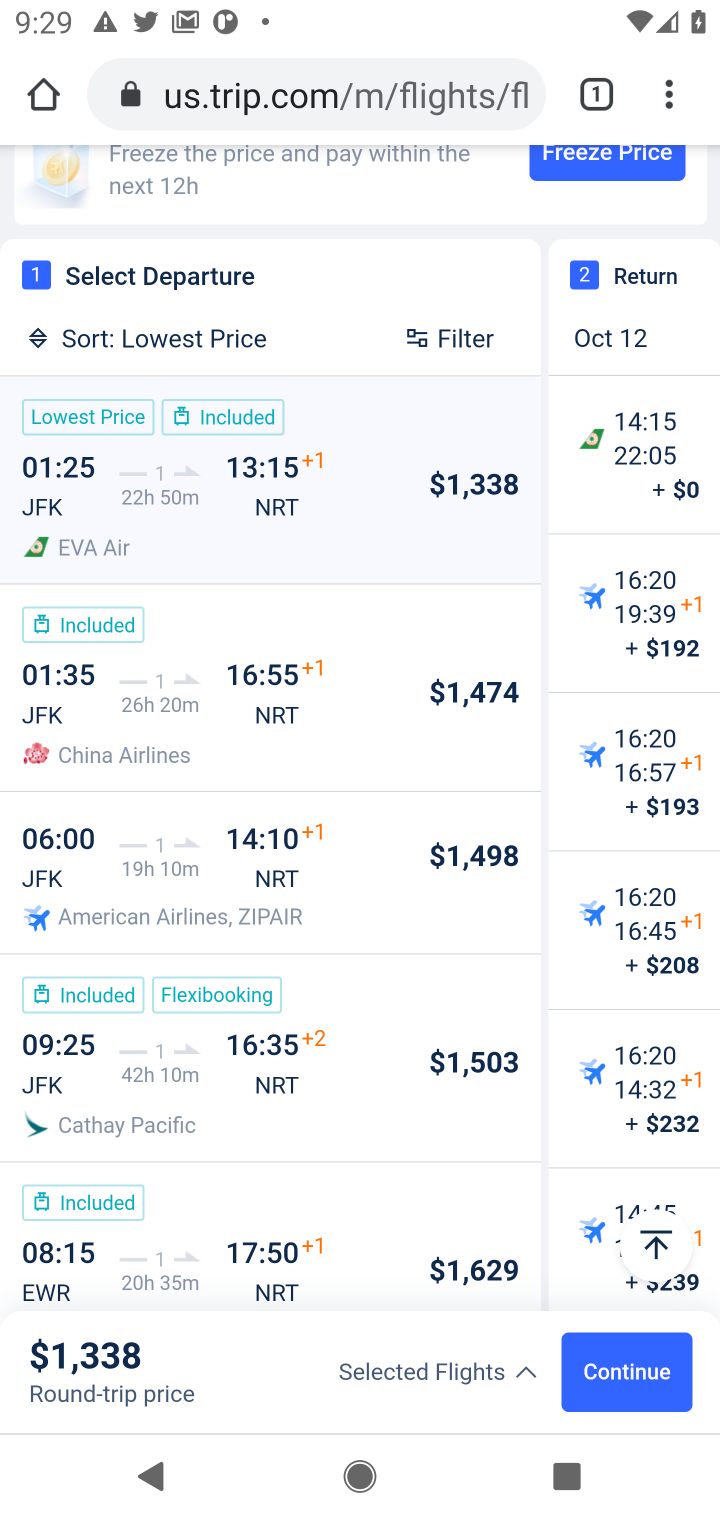
Step 28: drag from (382, 880) to (435, 219)
Your task to perform on an android device: Search for flights from Helsinki to Seoul Image 29: 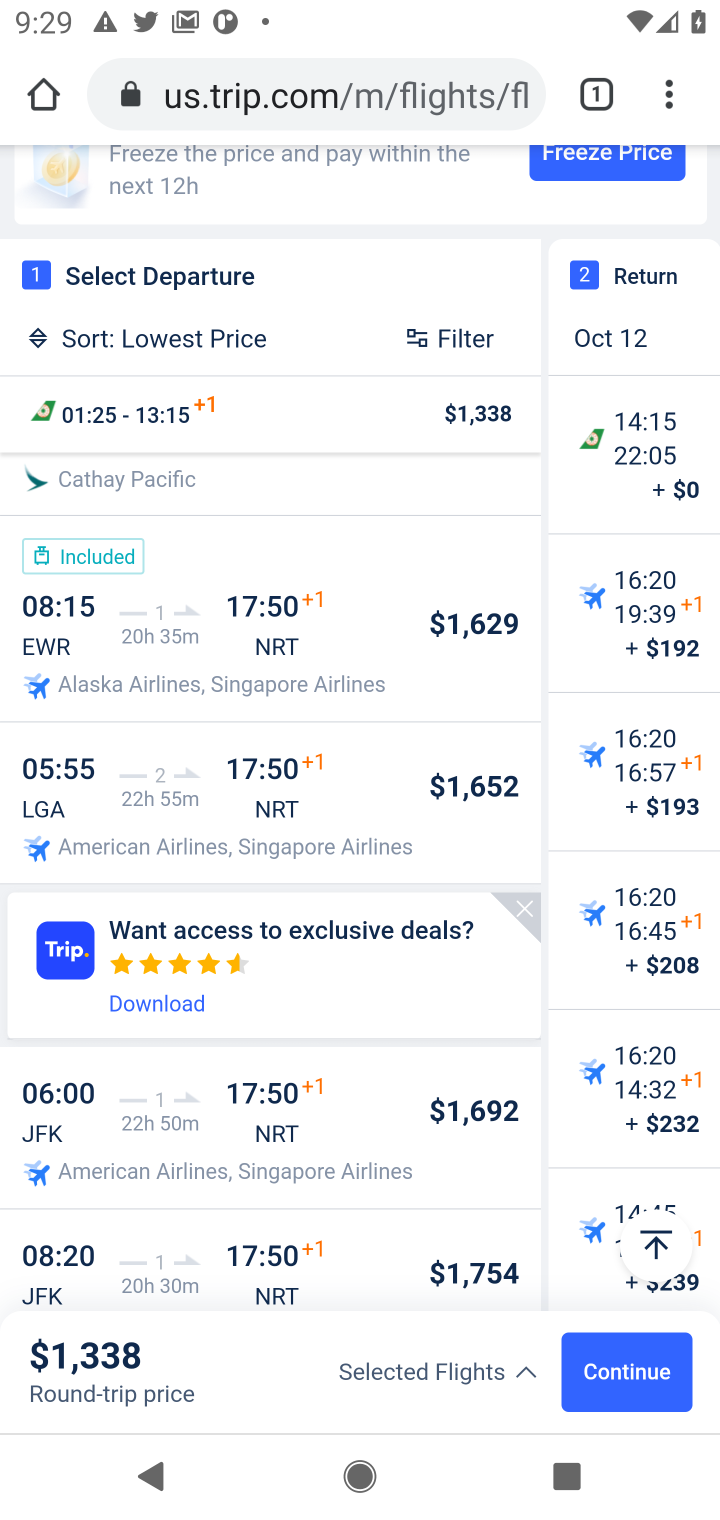
Step 29: drag from (486, 767) to (516, 125)
Your task to perform on an android device: Search for flights from Helsinki to Seoul Image 30: 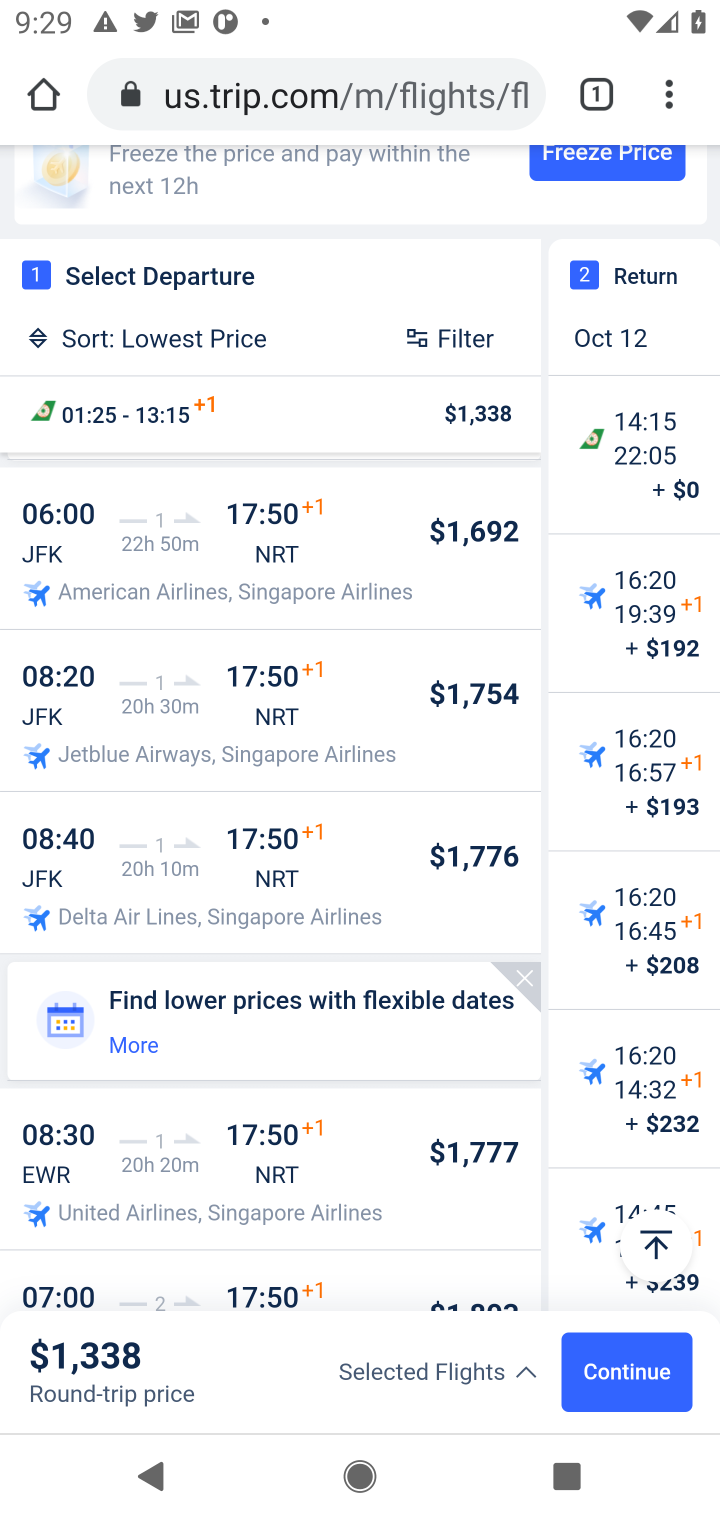
Step 30: drag from (171, 1101) to (201, 253)
Your task to perform on an android device: Search for flights from Helsinki to Seoul Image 31: 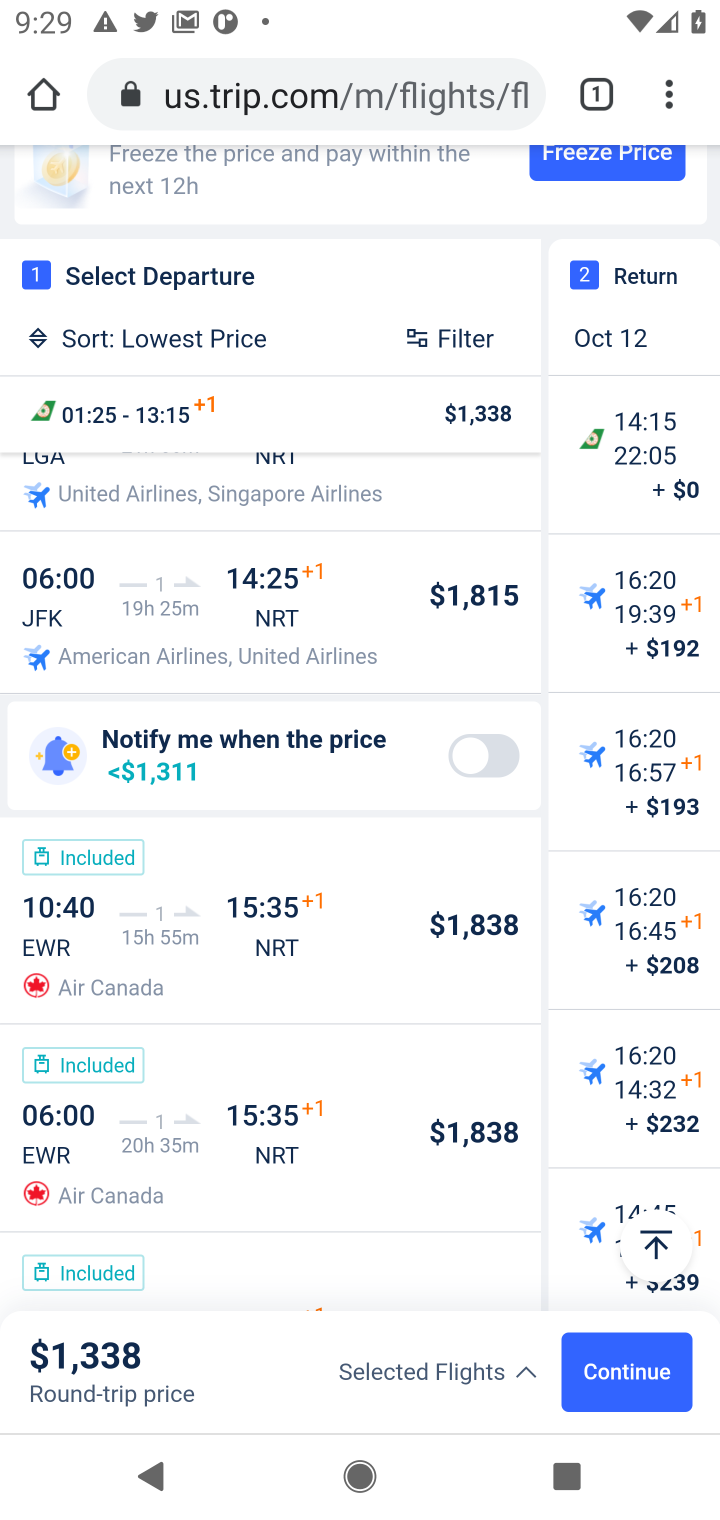
Step 31: click (157, 263)
Your task to perform on an android device: Search for flights from Helsinki to Seoul Image 32: 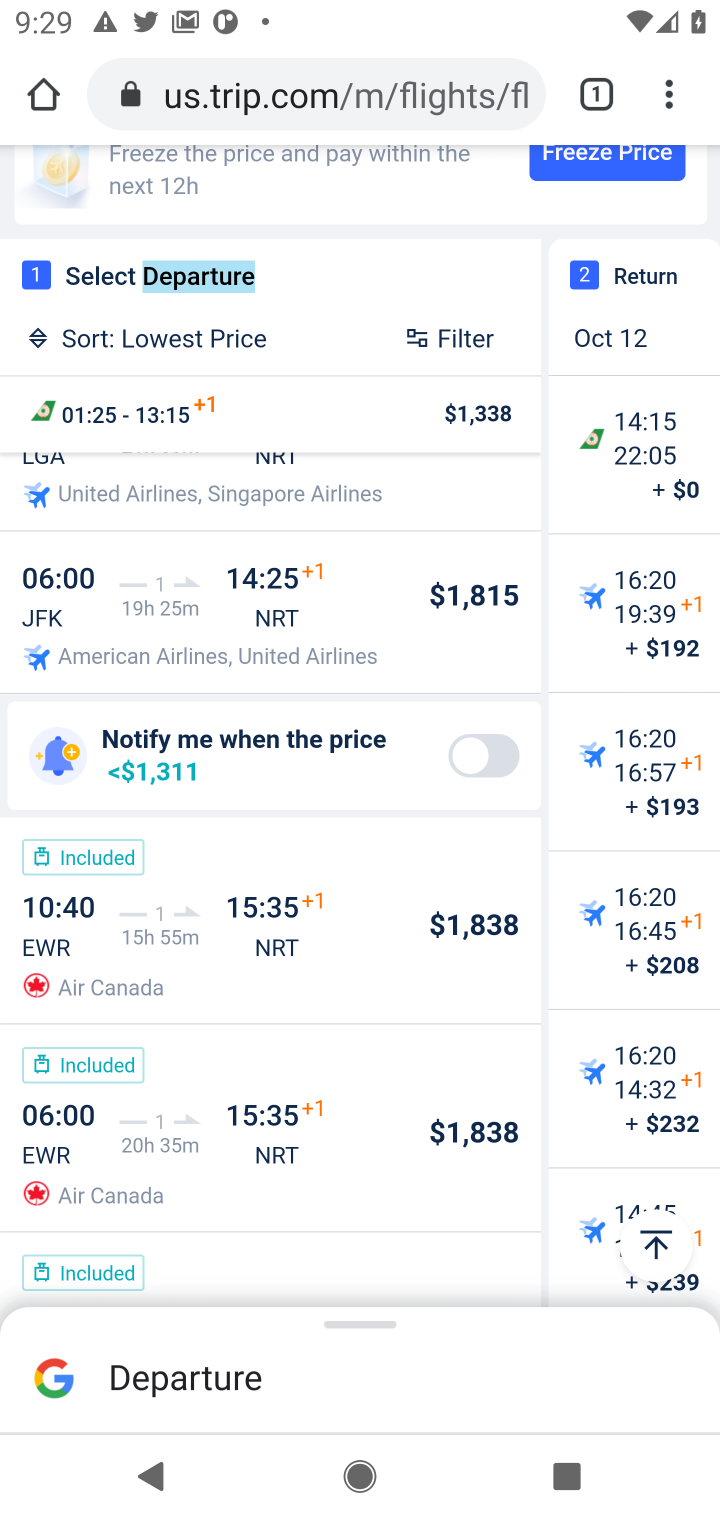
Step 32: click (82, 285)
Your task to perform on an android device: Search for flights from Helsinki to Seoul Image 33: 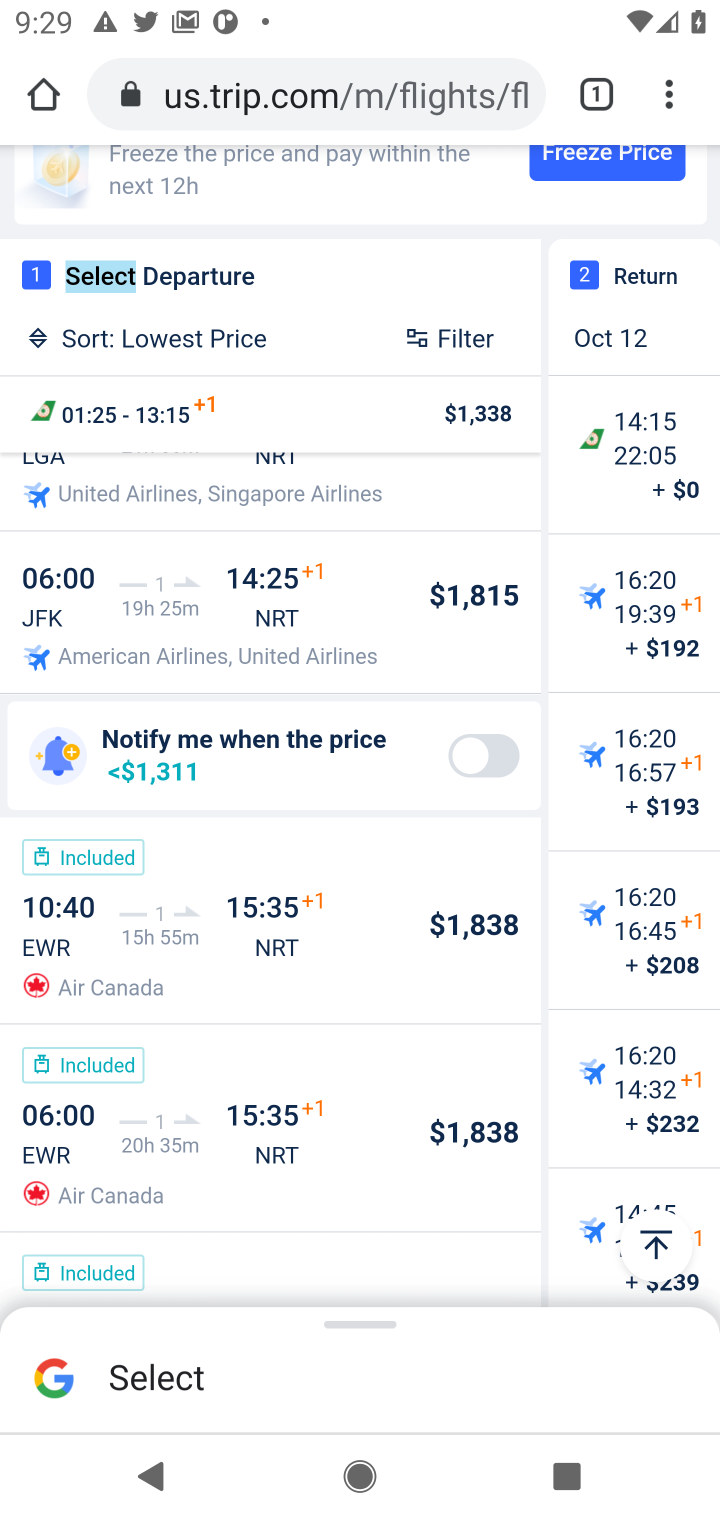
Step 33: click (179, 1369)
Your task to perform on an android device: Search for flights from Helsinki to Seoul Image 34: 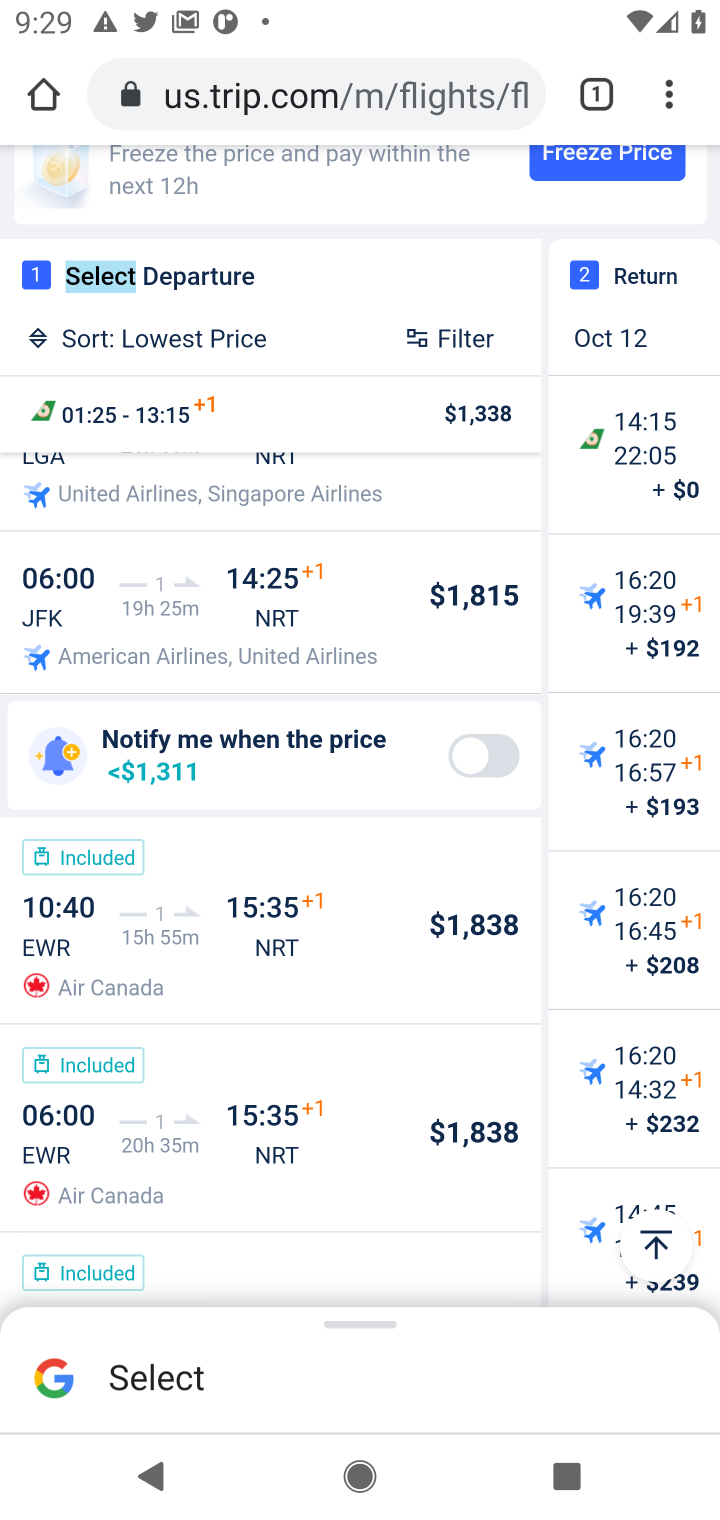
Step 34: click (141, 1371)
Your task to perform on an android device: Search for flights from Helsinki to Seoul Image 35: 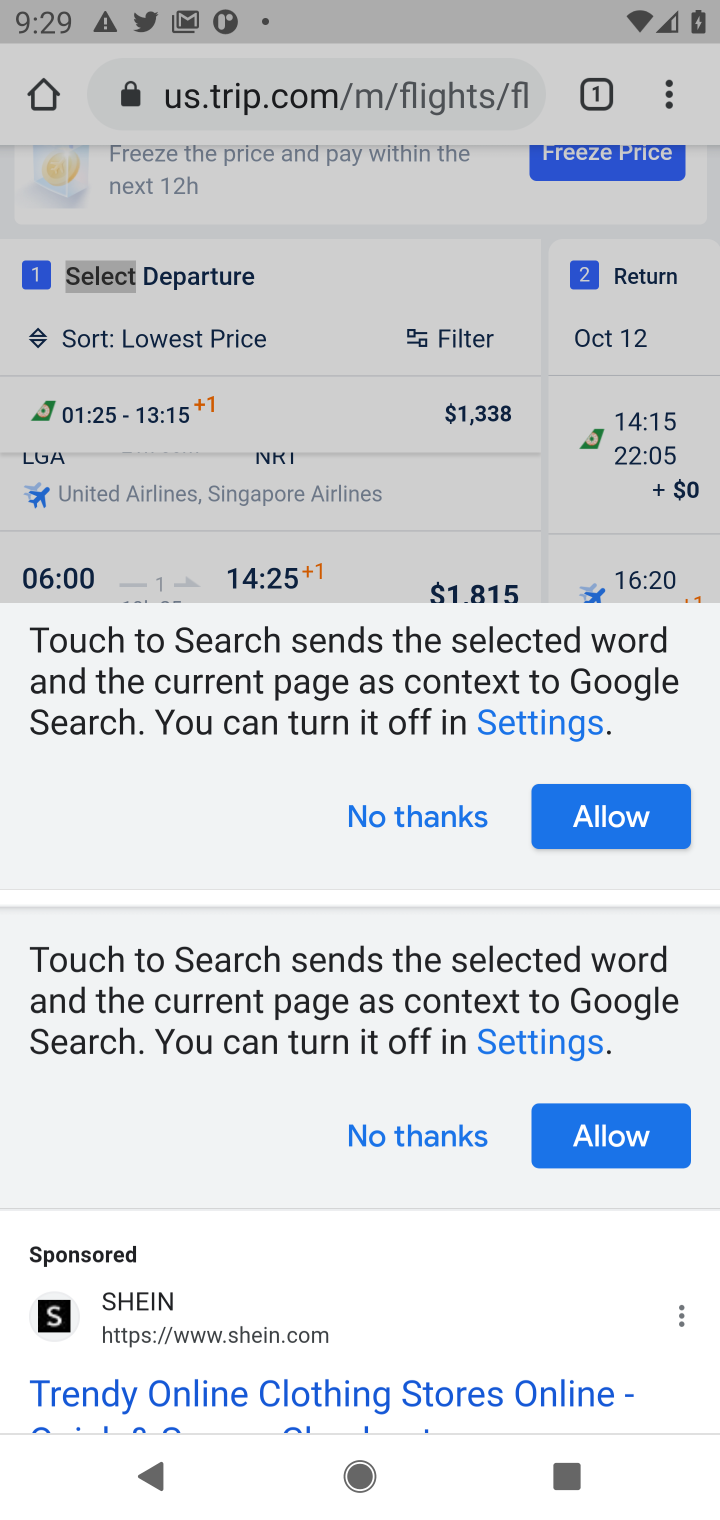
Step 35: drag from (370, 1326) to (389, 1047)
Your task to perform on an android device: Search for flights from Helsinki to Seoul Image 36: 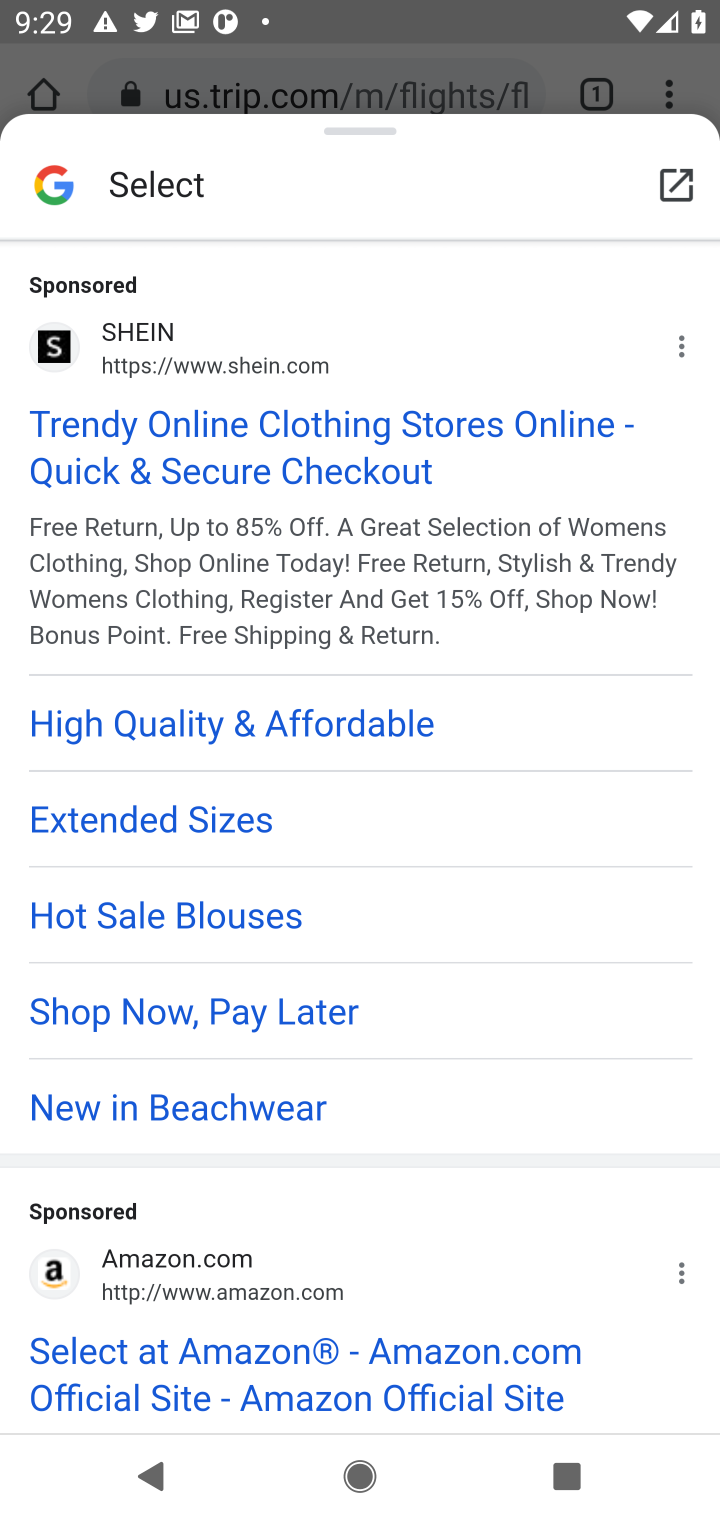
Step 36: drag from (348, 121) to (377, 1423)
Your task to perform on an android device: Search for flights from Helsinki to Seoul Image 37: 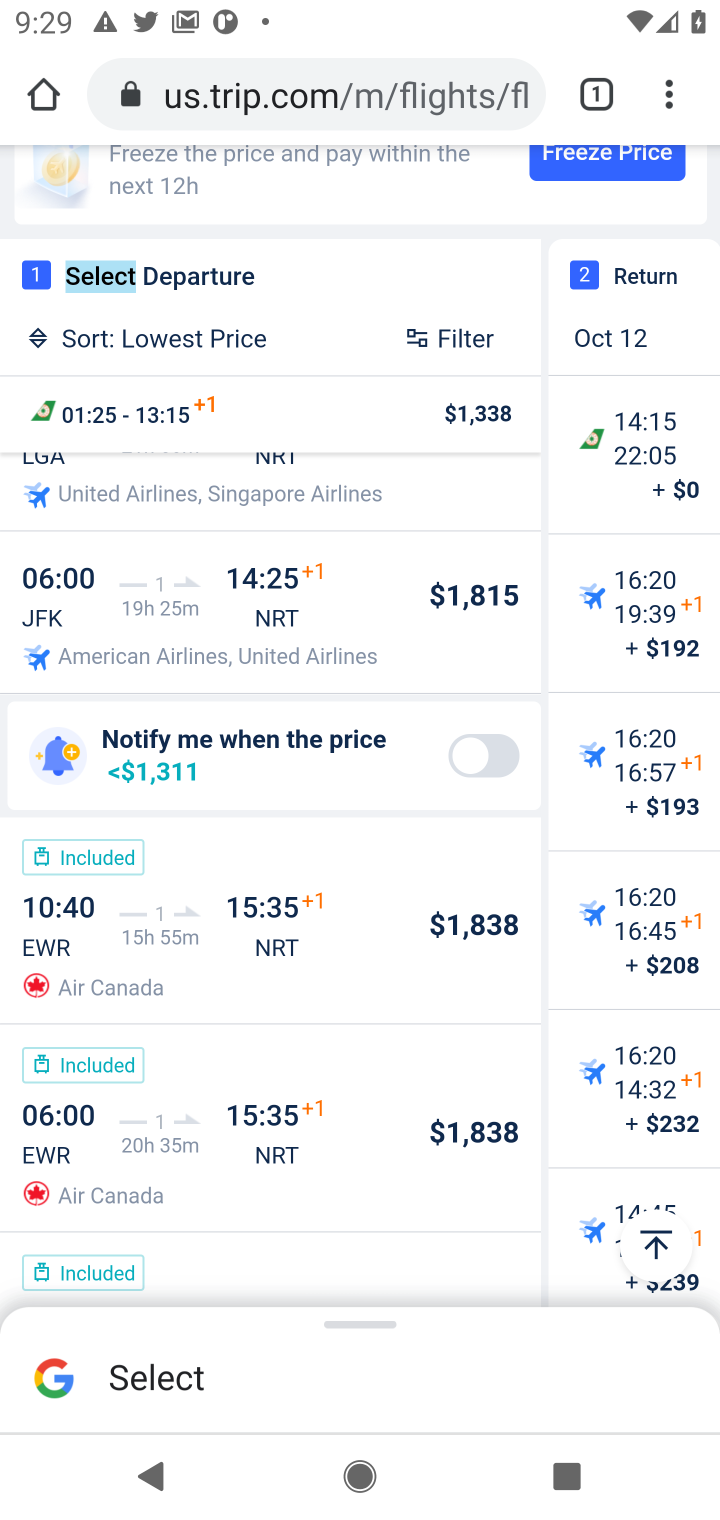
Step 37: drag from (425, 876) to (479, 247)
Your task to perform on an android device: Search for flights from Helsinki to Seoul Image 38: 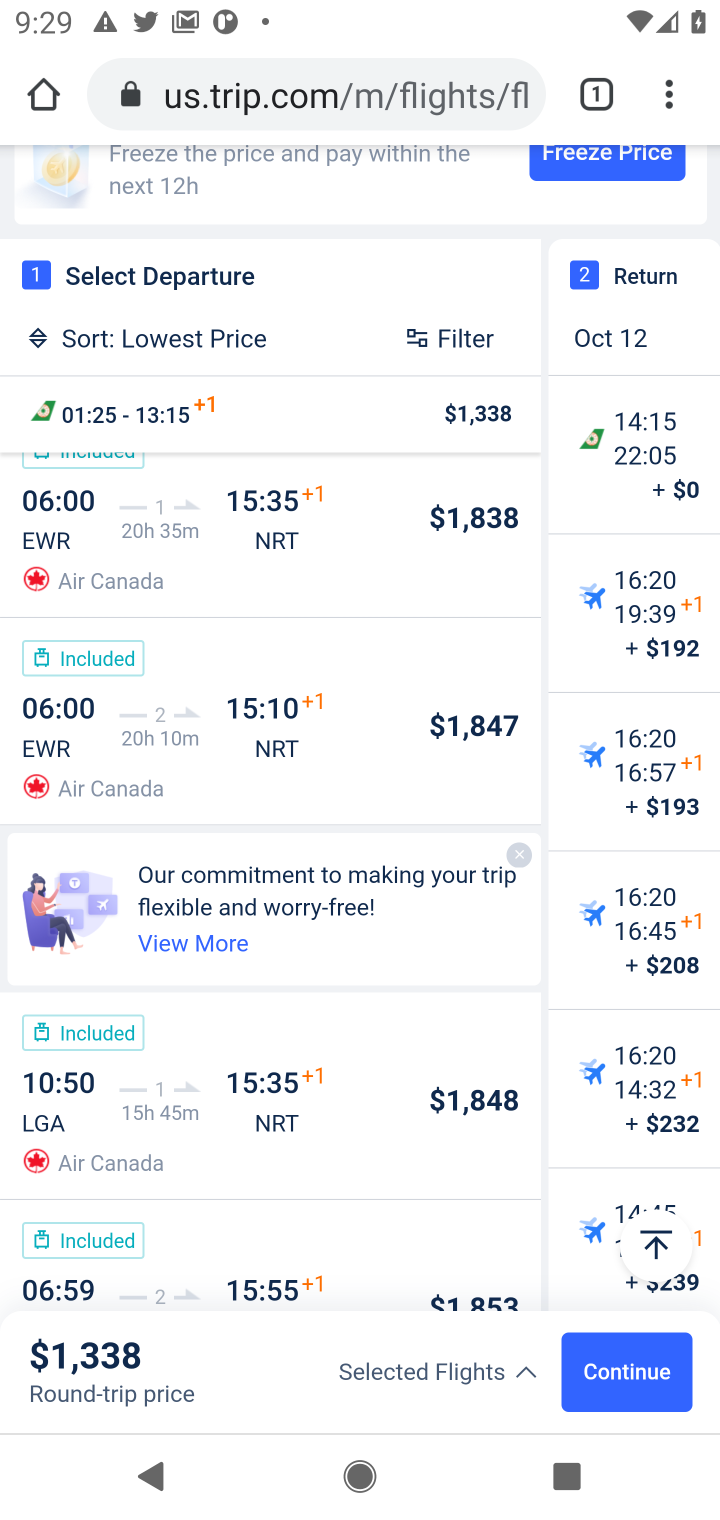
Step 38: drag from (309, 982) to (454, 315)
Your task to perform on an android device: Search for flights from Helsinki to Seoul Image 39: 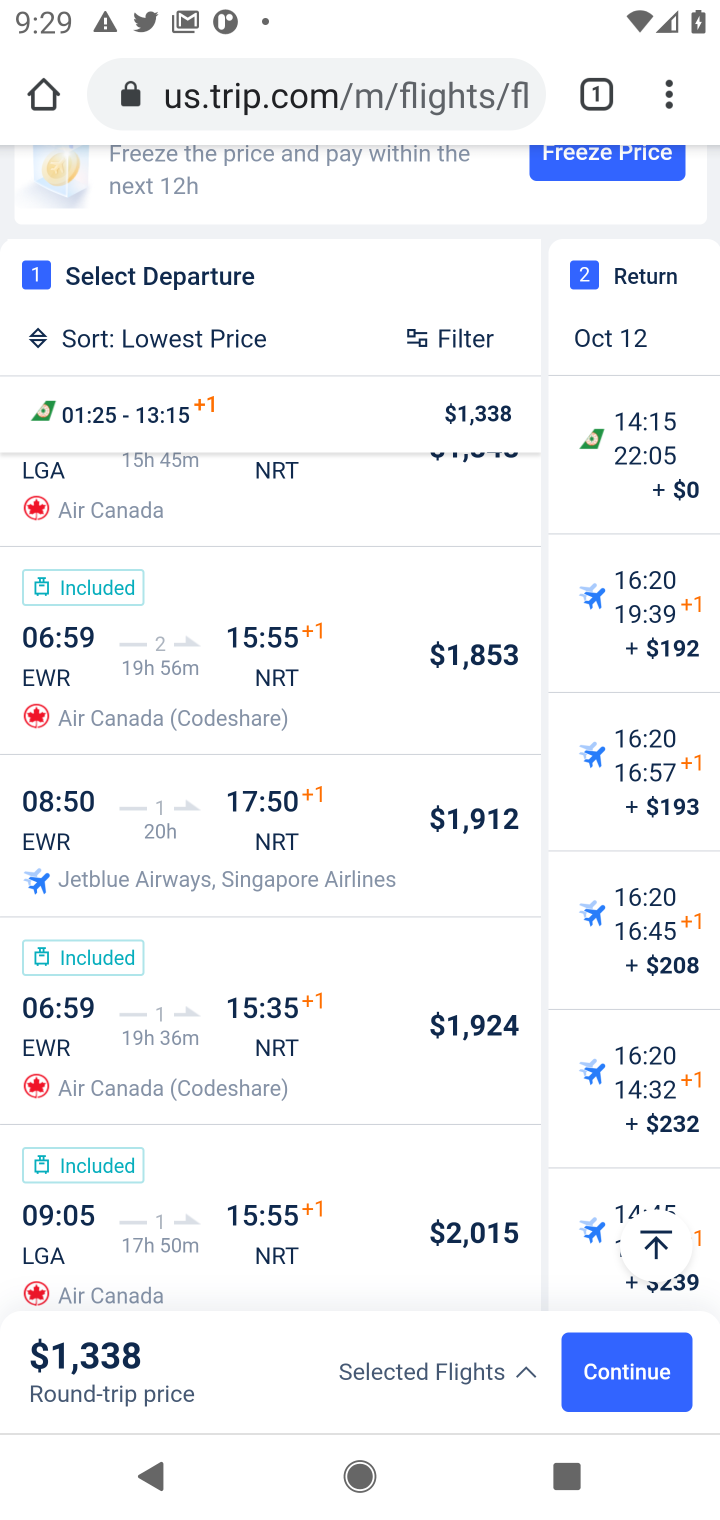
Step 39: click (524, 1369)
Your task to perform on an android device: Search for flights from Helsinki to Seoul Image 40: 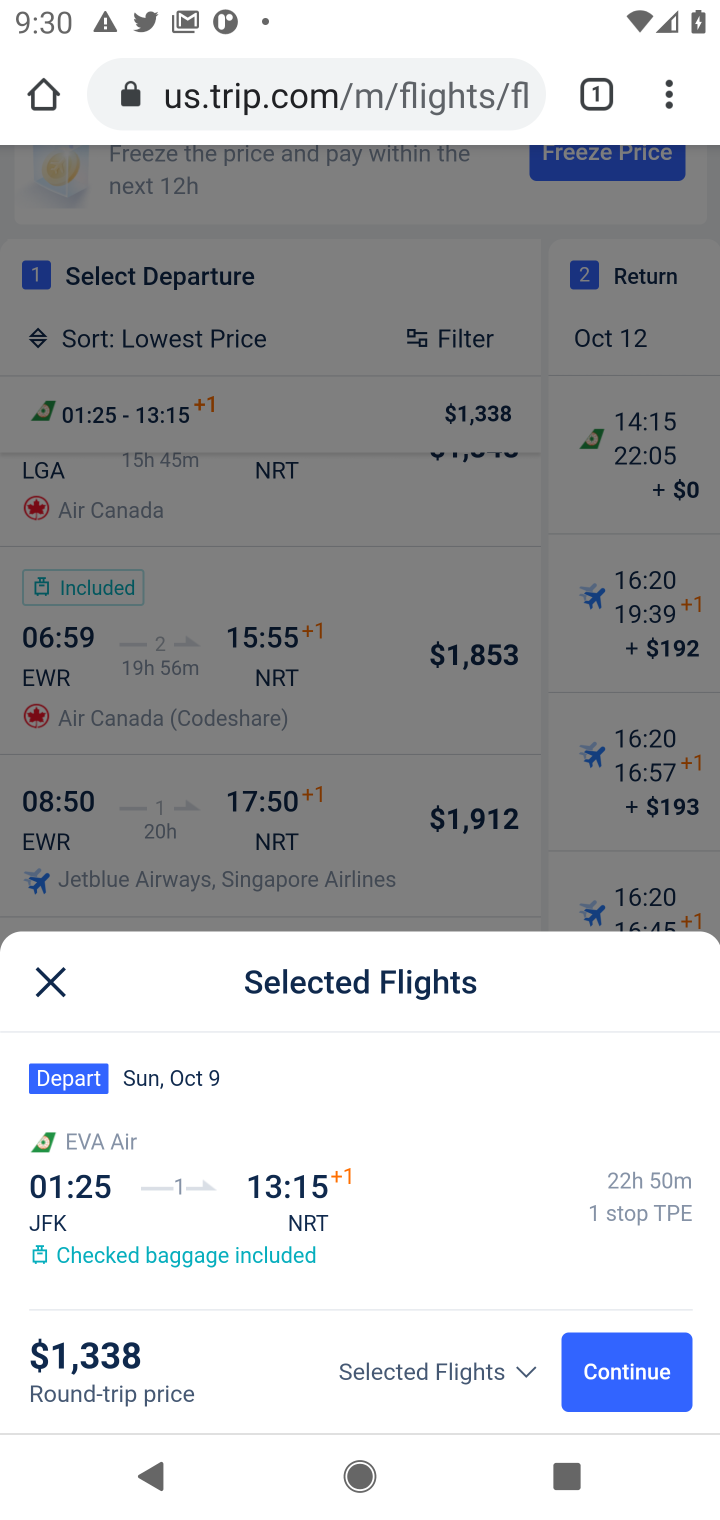
Step 40: click (517, 1370)
Your task to perform on an android device: Search for flights from Helsinki to Seoul Image 41: 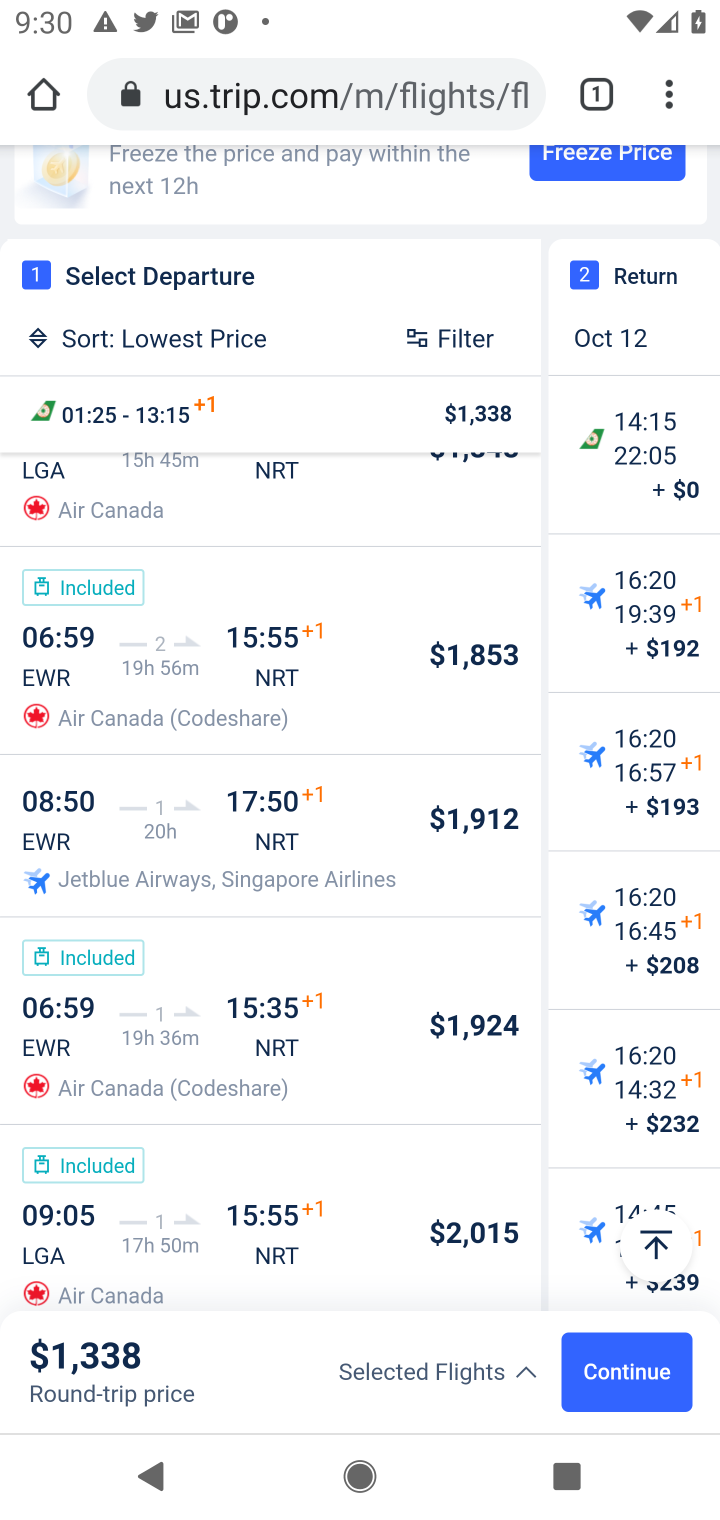
Step 41: click (167, 271)
Your task to perform on an android device: Search for flights from Helsinki to Seoul Image 42: 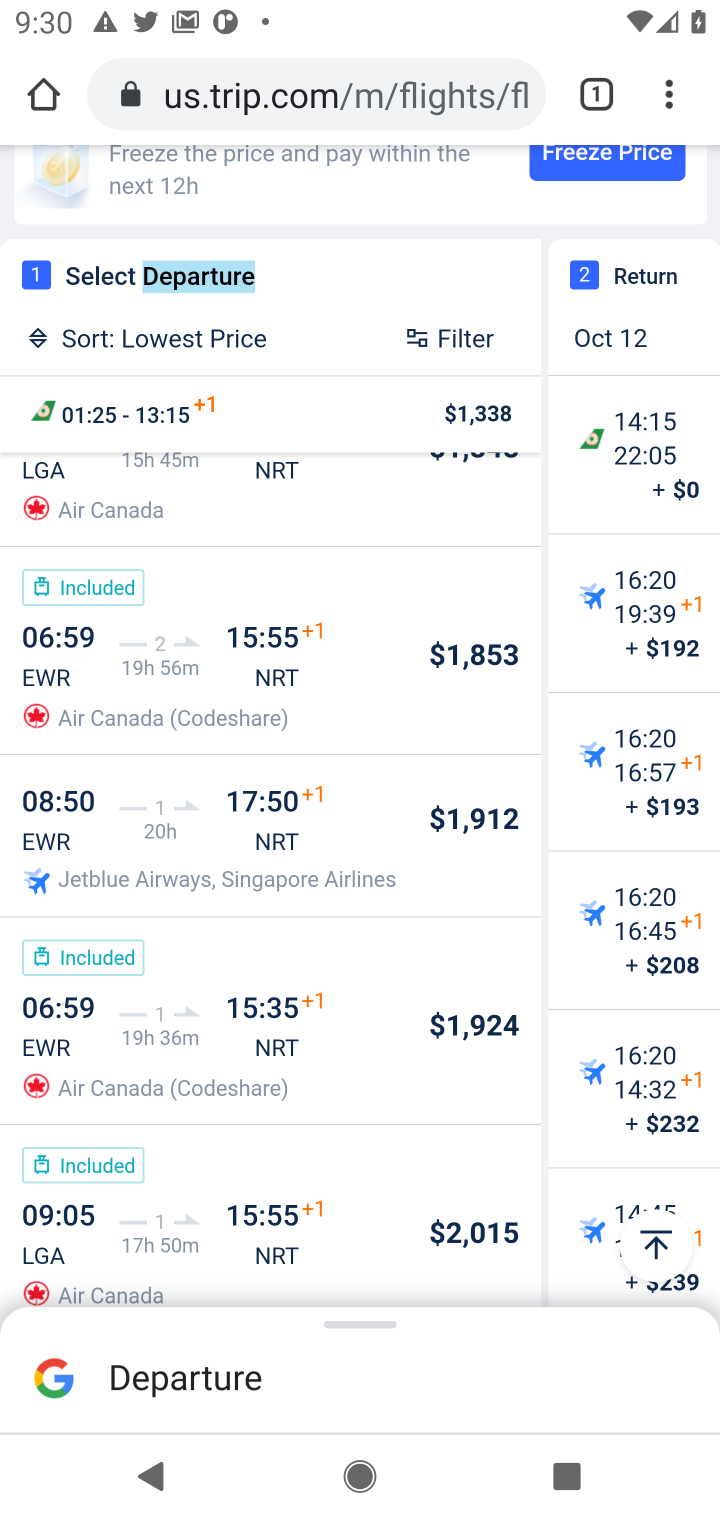
Step 42: click (58, 845)
Your task to perform on an android device: Search for flights from Helsinki to Seoul Image 43: 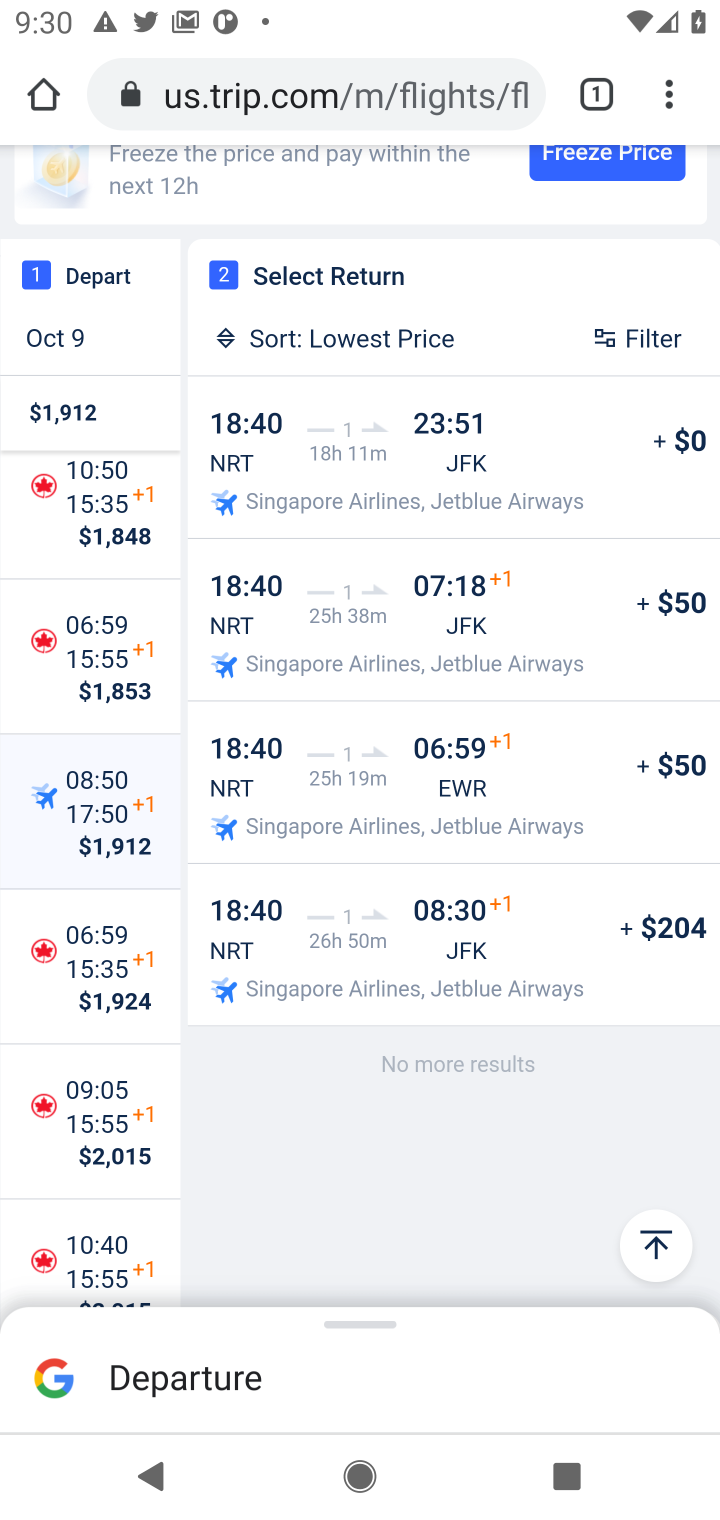
Step 43: drag from (502, 625) to (500, 240)
Your task to perform on an android device: Search for flights from Helsinki to Seoul Image 44: 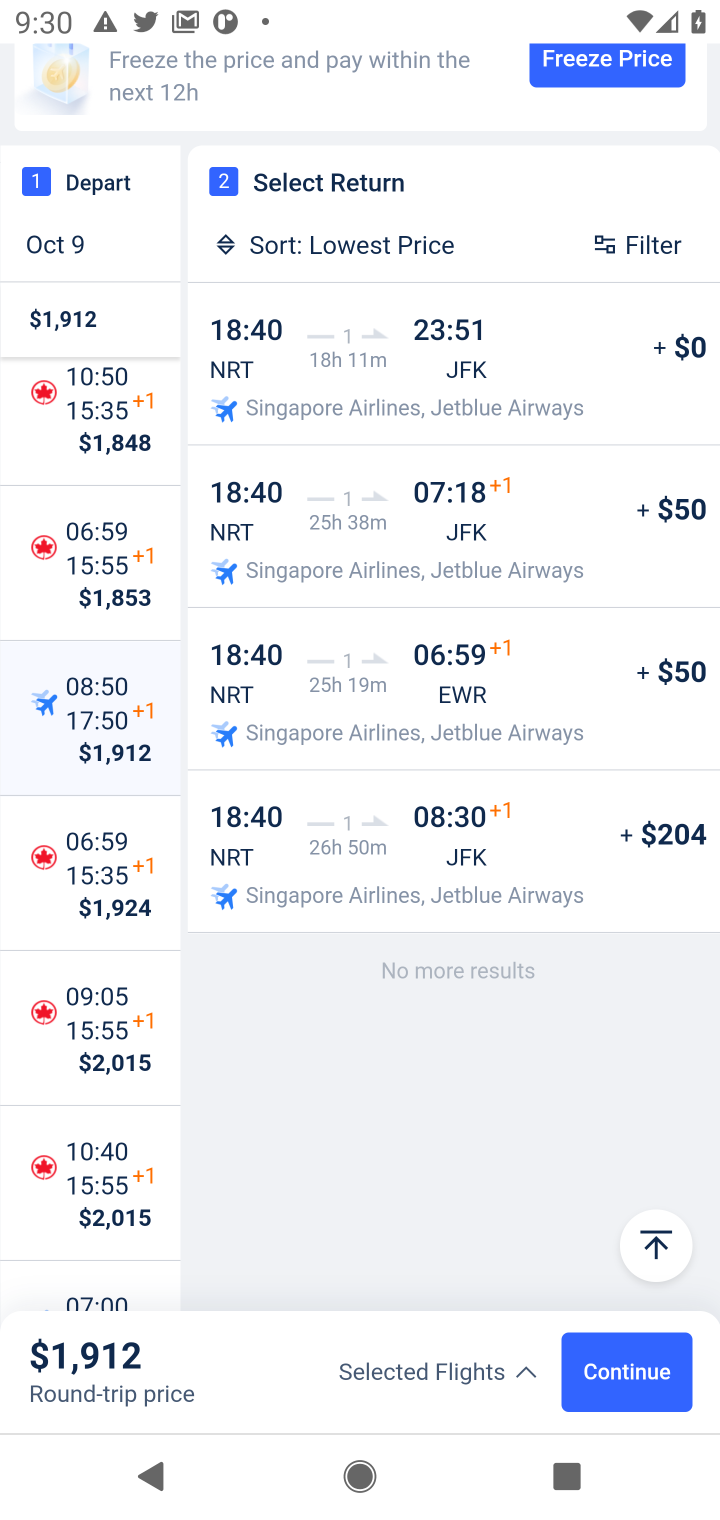
Step 44: drag from (195, 699) to (214, 199)
Your task to perform on an android device: Search for flights from Helsinki to Seoul Image 45: 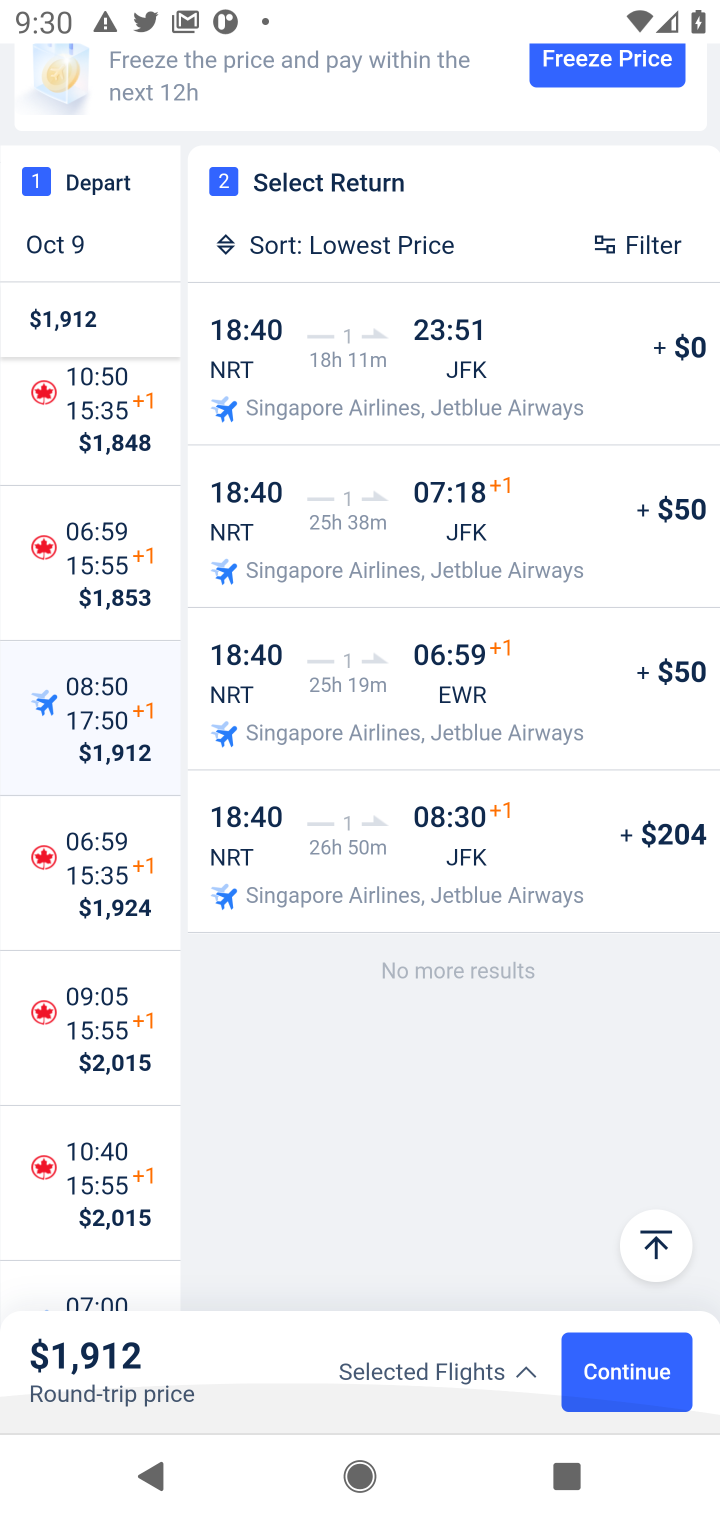
Step 45: click (50, 178)
Your task to perform on an android device: Search for flights from Helsinki to Seoul Image 46: 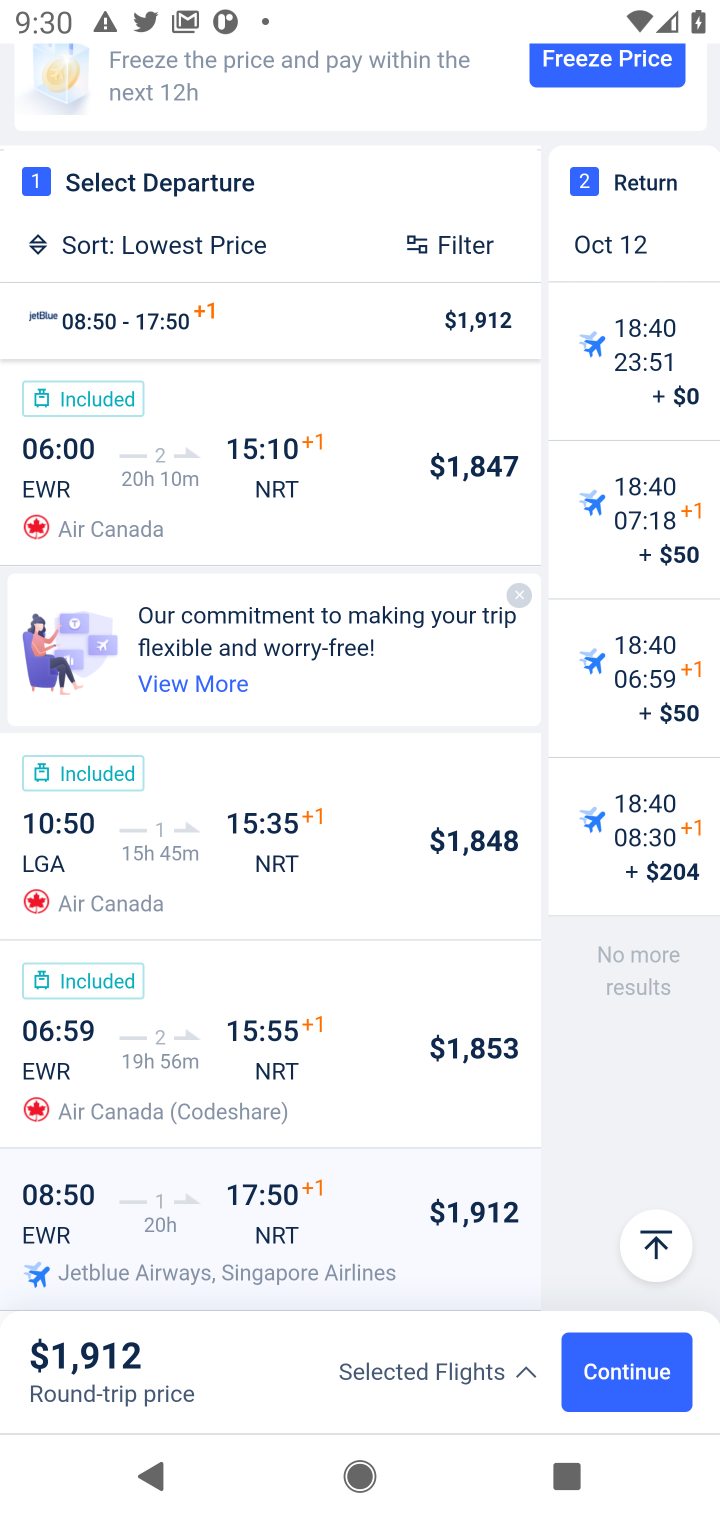
Step 46: click (501, 287)
Your task to perform on an android device: Search for flights from Helsinki to Seoul Image 47: 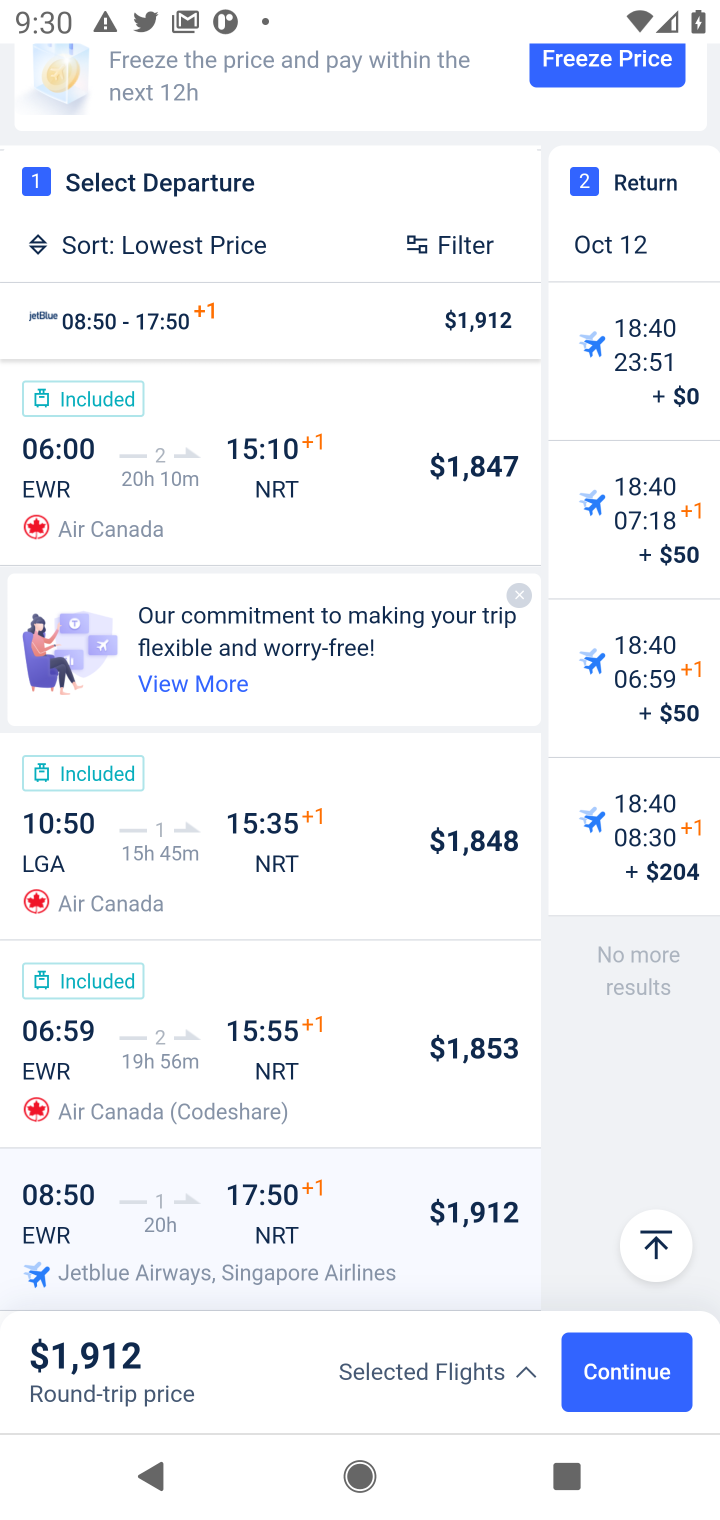
Step 47: click (118, 180)
Your task to perform on an android device: Search for flights from Helsinki to Seoul Image 48: 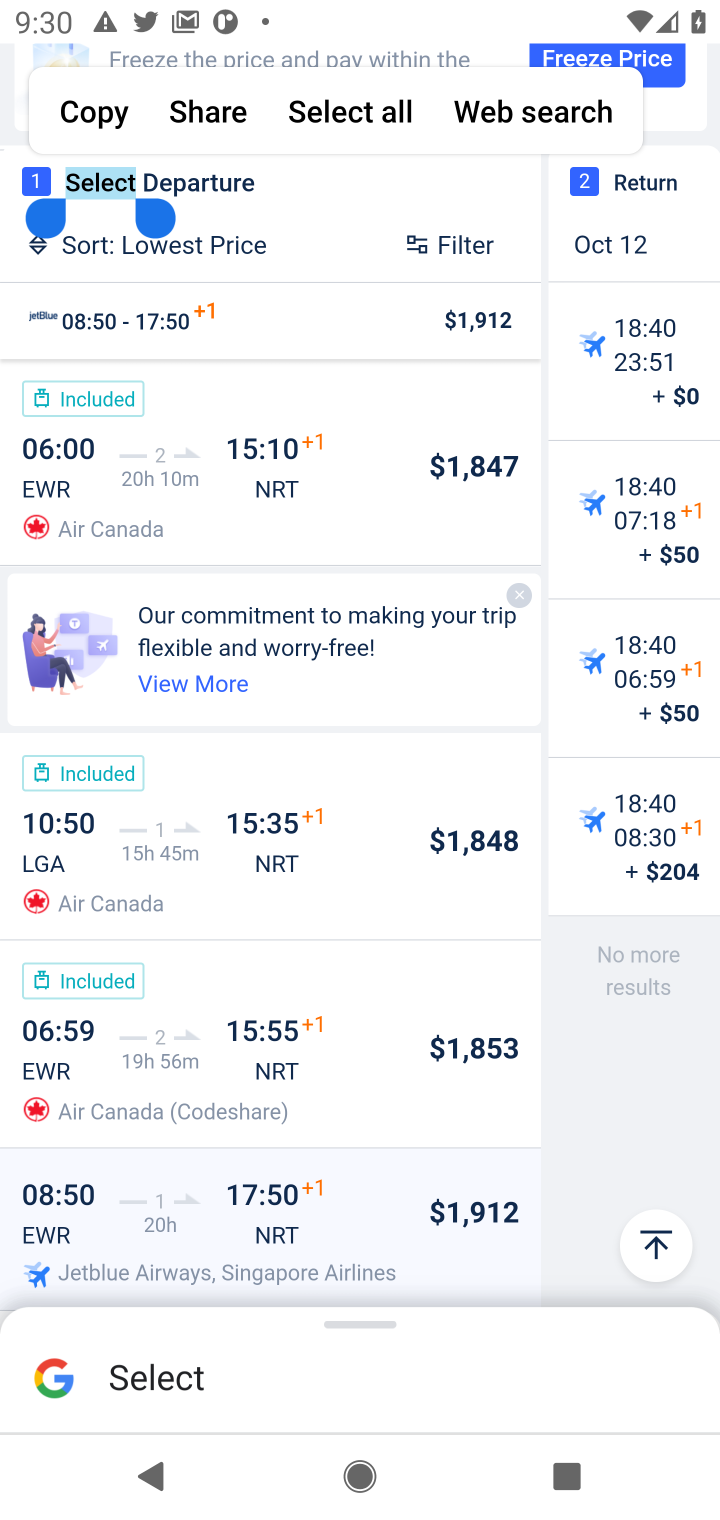
Step 48: task complete